Your task to perform on an android device: turn off priority inbox in the gmail app Image 0: 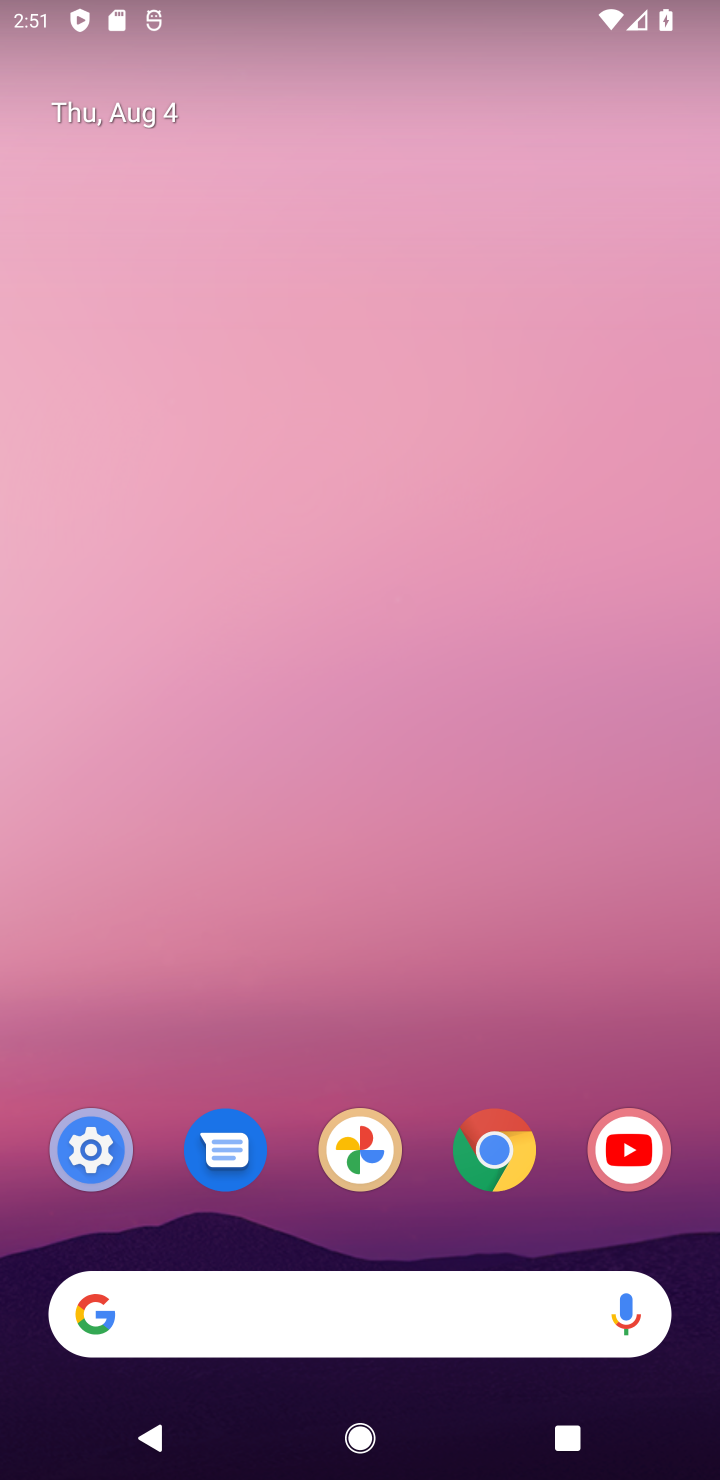
Step 0: drag from (353, 1162) to (96, 567)
Your task to perform on an android device: turn off priority inbox in the gmail app Image 1: 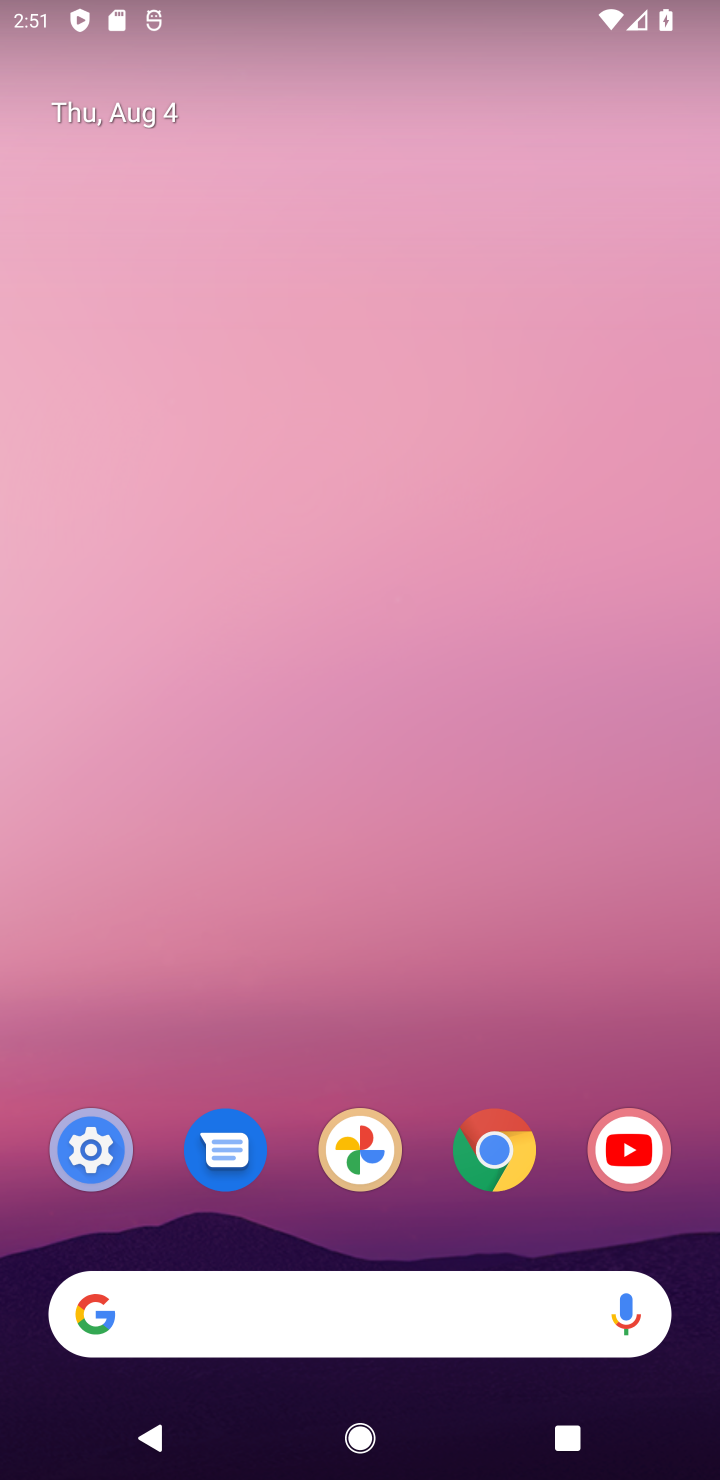
Step 1: click (430, 728)
Your task to perform on an android device: turn off priority inbox in the gmail app Image 2: 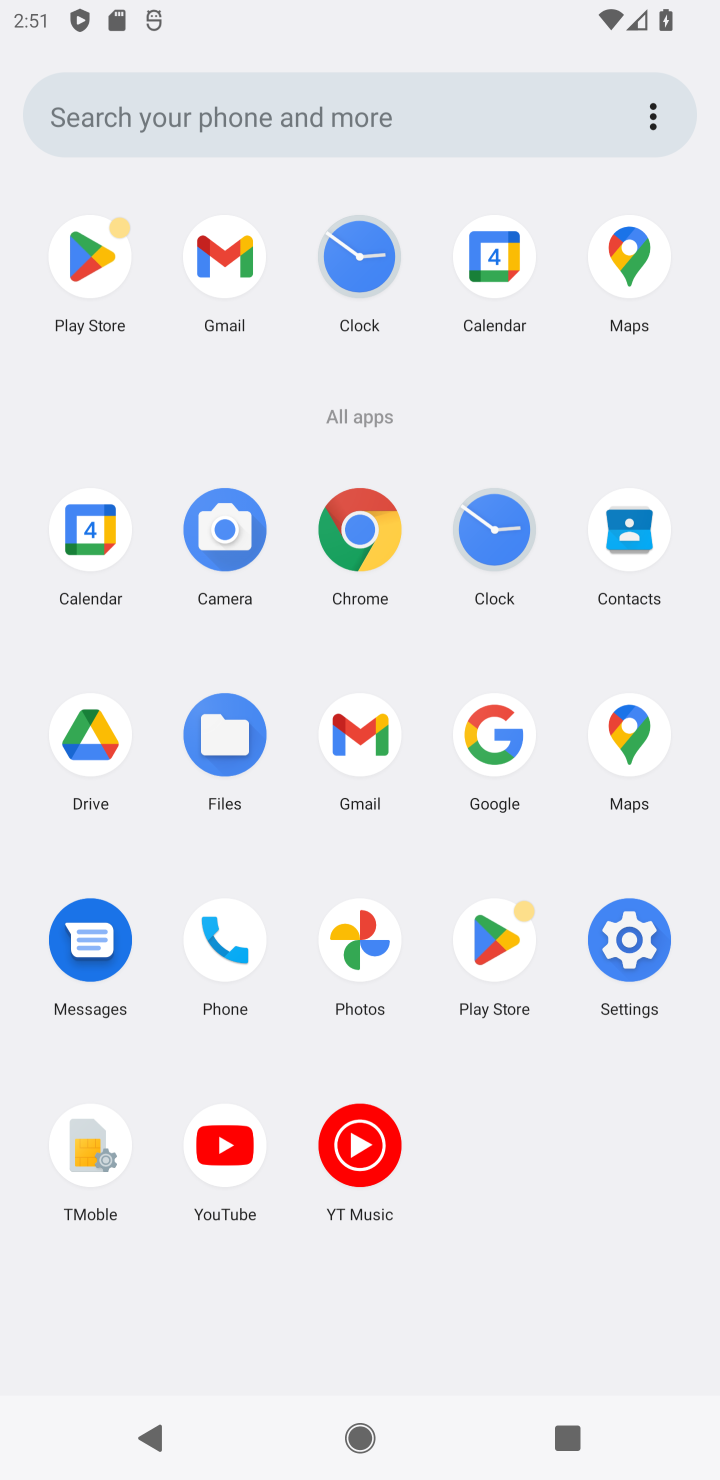
Step 2: drag from (438, 1252) to (432, 884)
Your task to perform on an android device: turn off priority inbox in the gmail app Image 3: 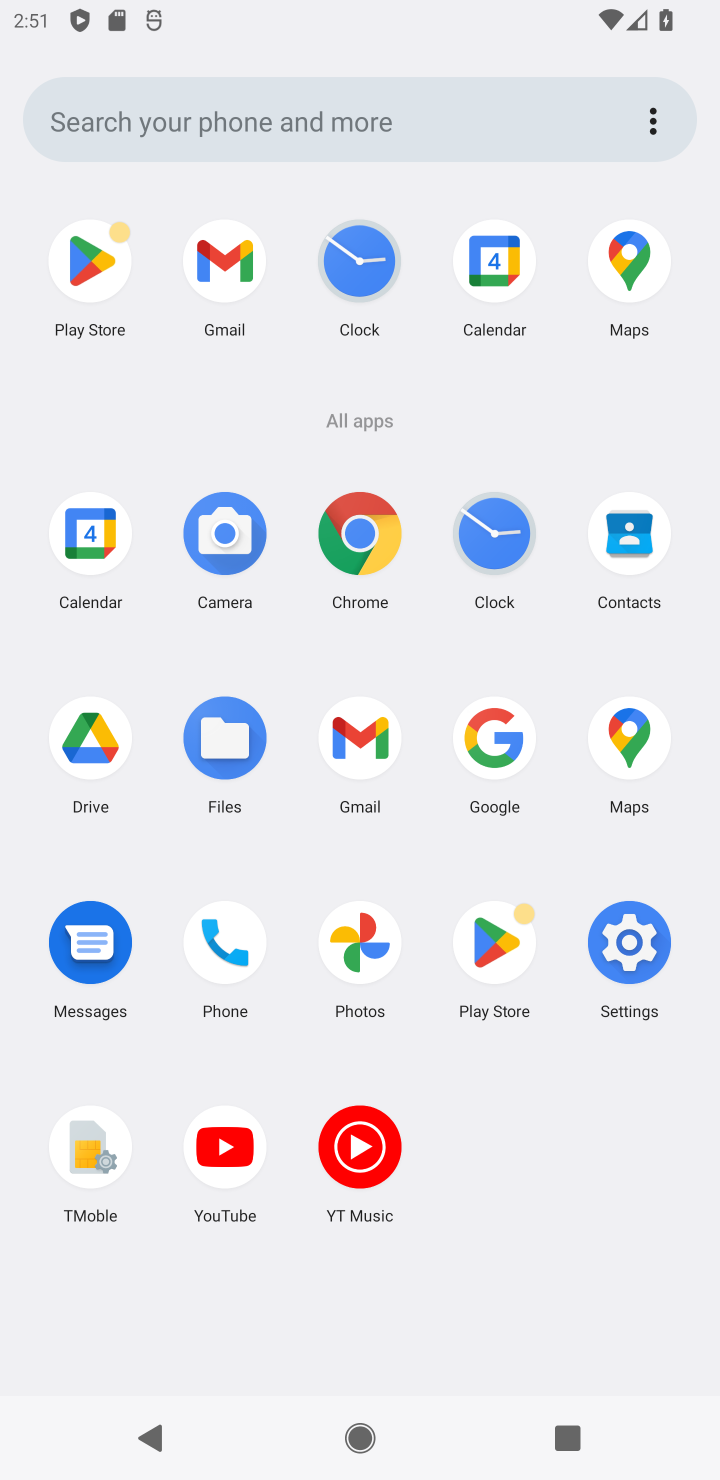
Step 3: click (356, 726)
Your task to perform on an android device: turn off priority inbox in the gmail app Image 4: 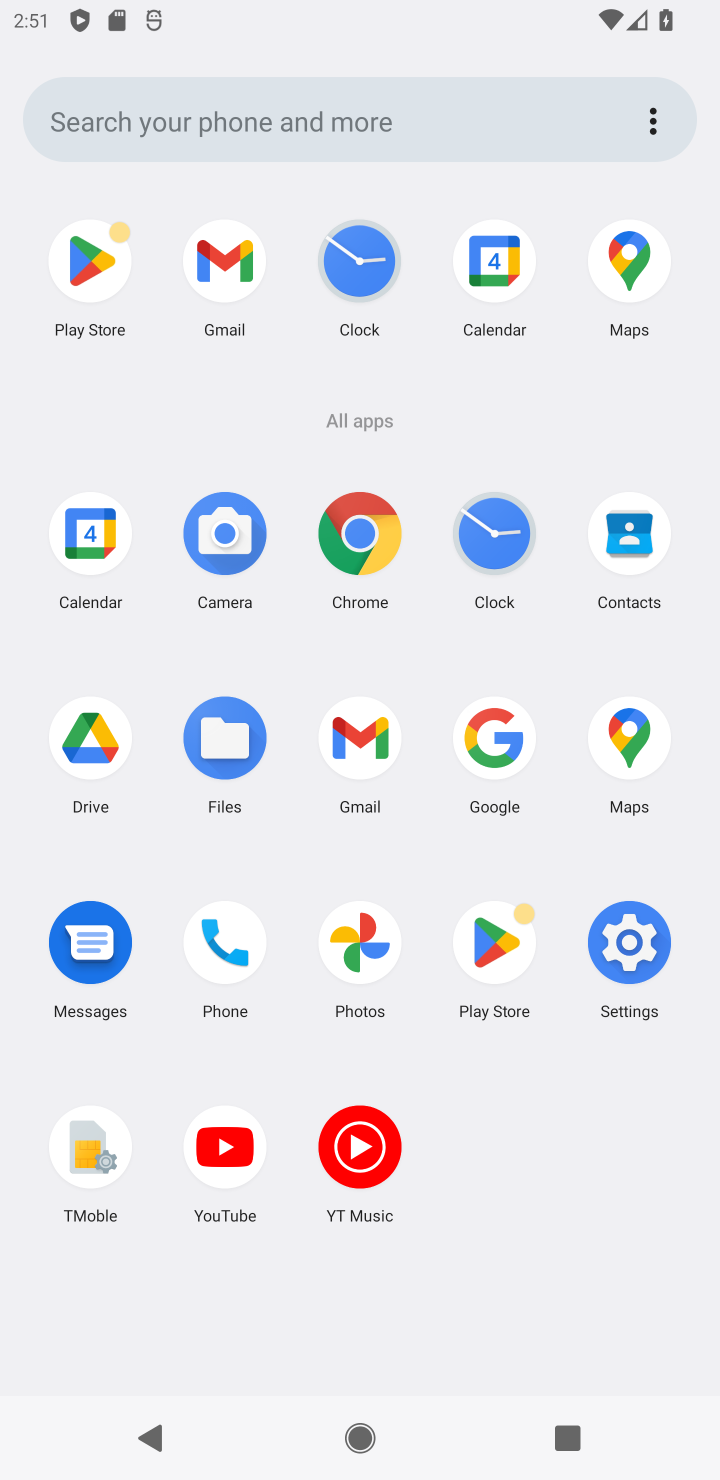
Step 4: click (358, 724)
Your task to perform on an android device: turn off priority inbox in the gmail app Image 5: 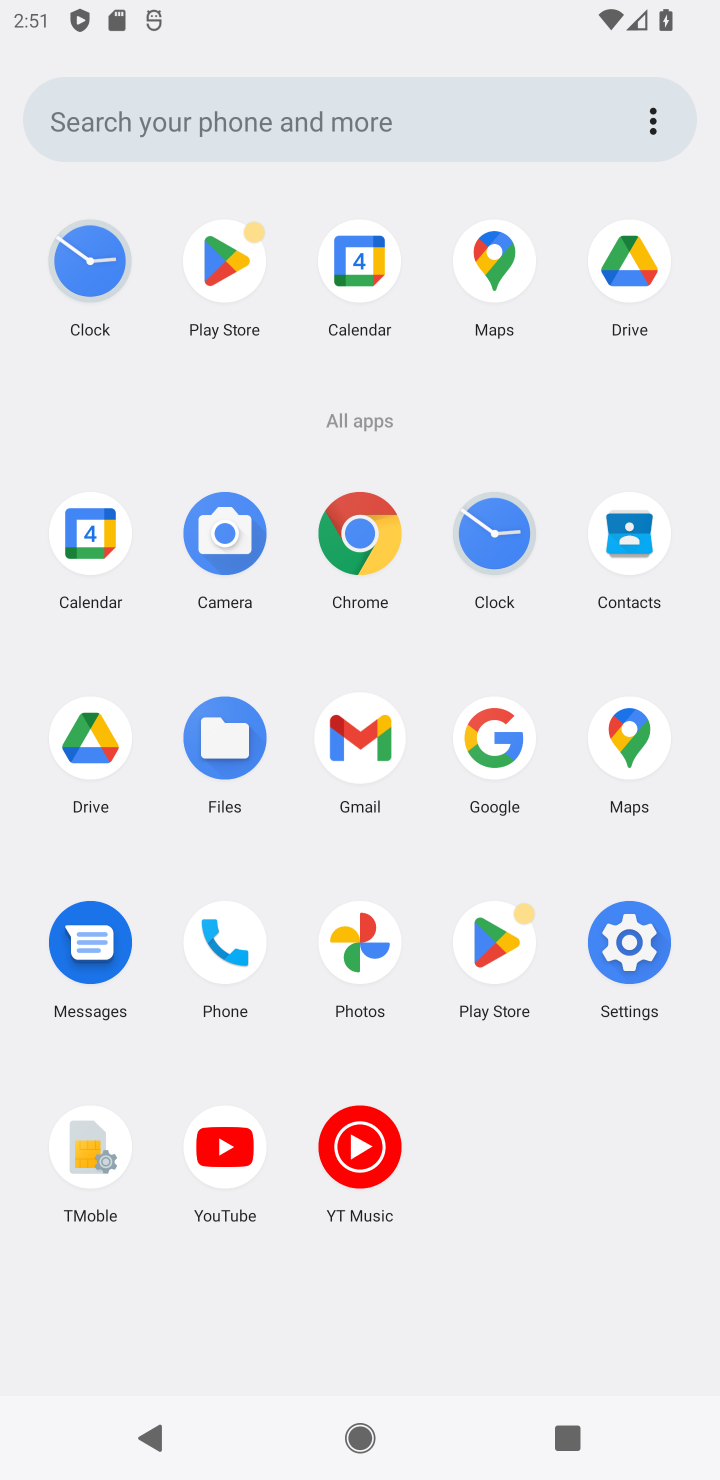
Step 5: click (354, 724)
Your task to perform on an android device: turn off priority inbox in the gmail app Image 6: 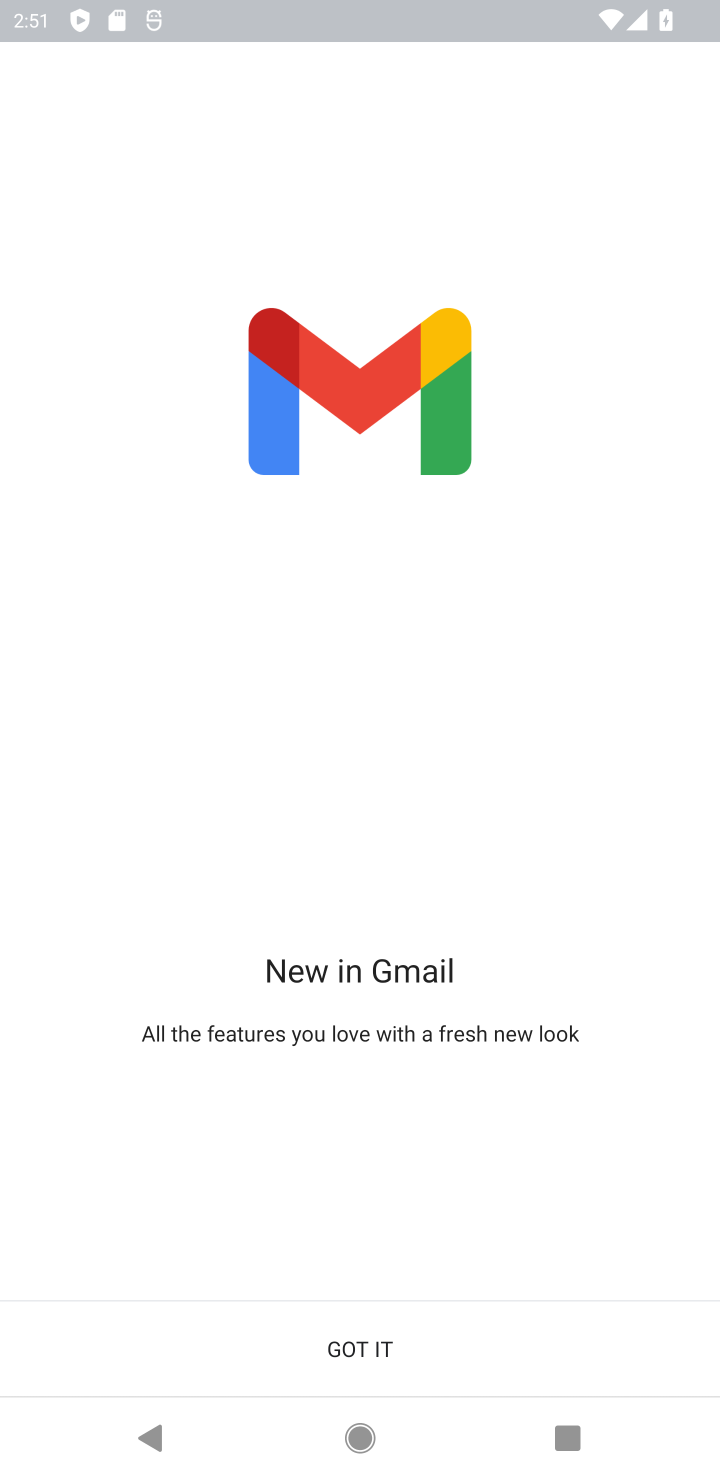
Step 6: click (351, 1338)
Your task to perform on an android device: turn off priority inbox in the gmail app Image 7: 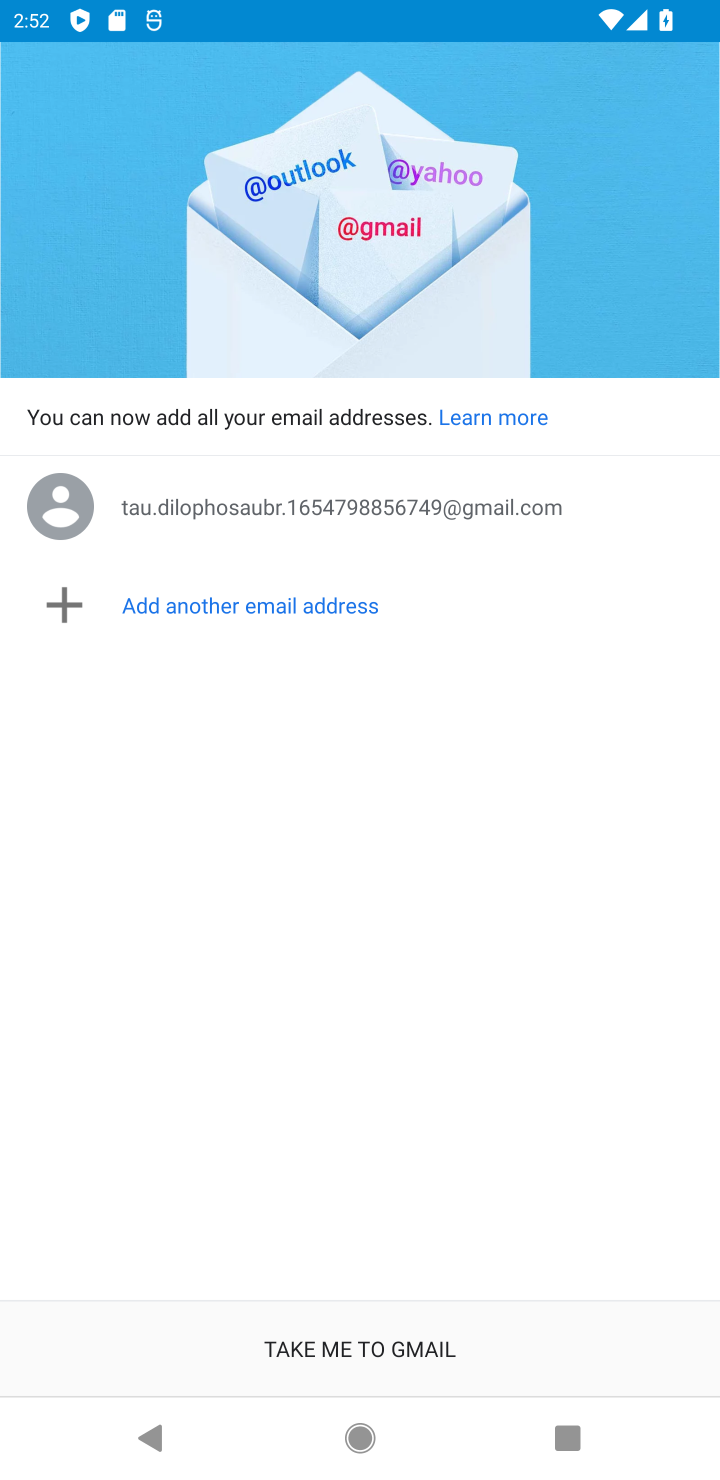
Step 7: click (377, 1353)
Your task to perform on an android device: turn off priority inbox in the gmail app Image 8: 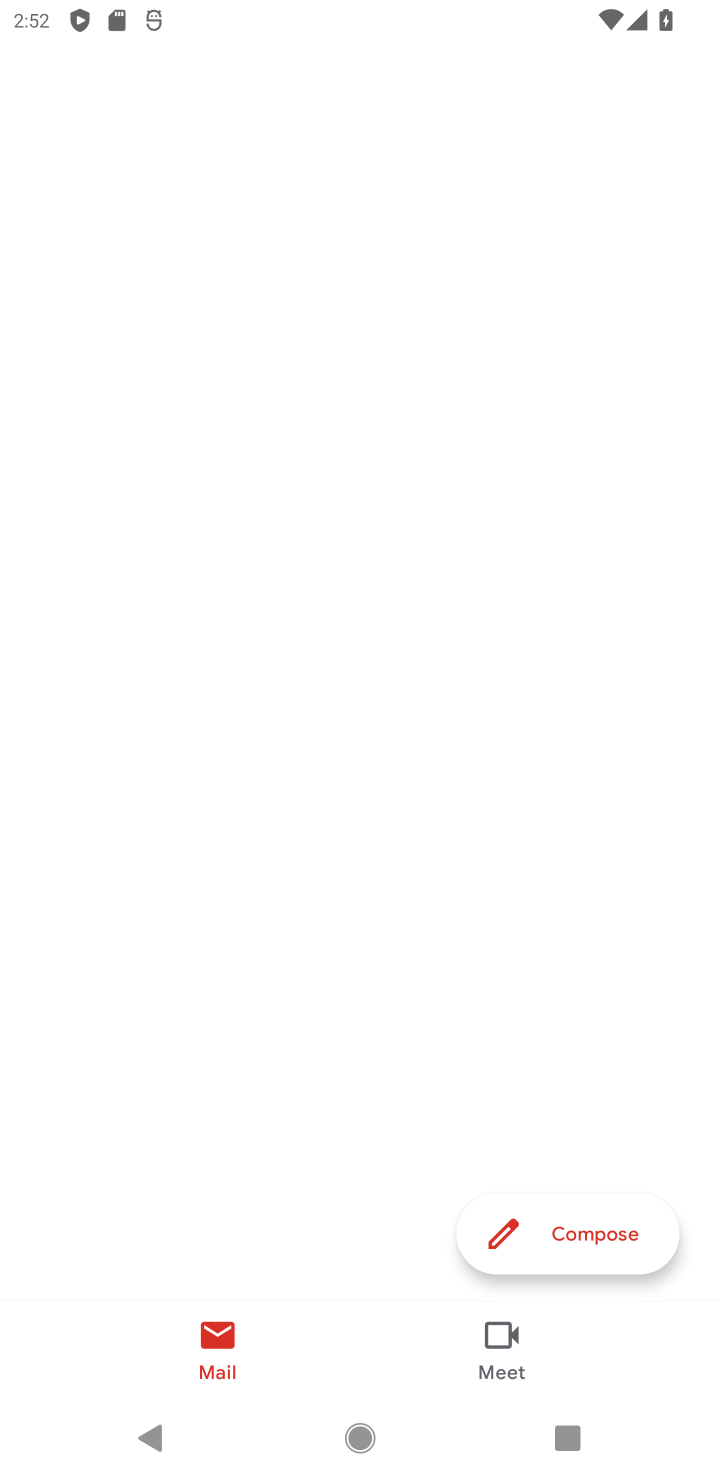
Step 8: click (377, 1339)
Your task to perform on an android device: turn off priority inbox in the gmail app Image 9: 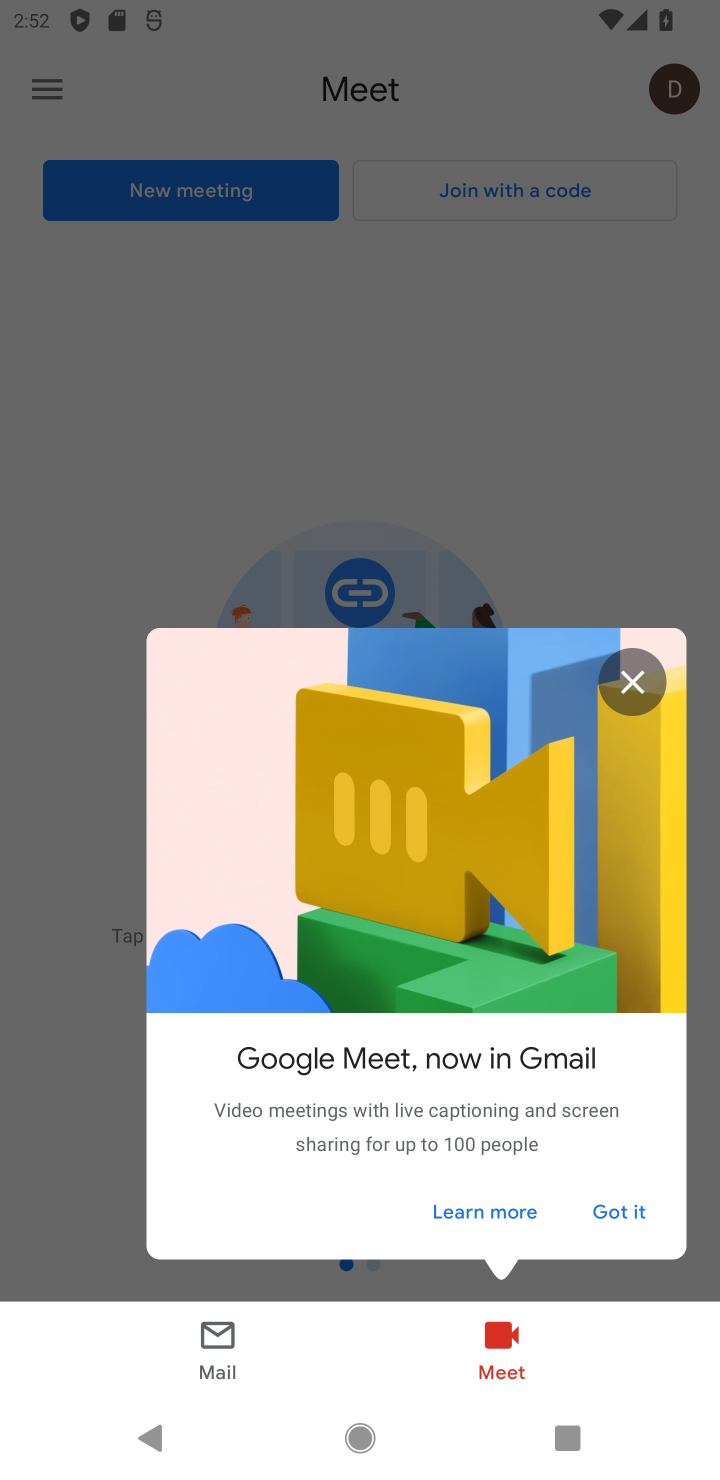
Step 9: press back button
Your task to perform on an android device: turn off priority inbox in the gmail app Image 10: 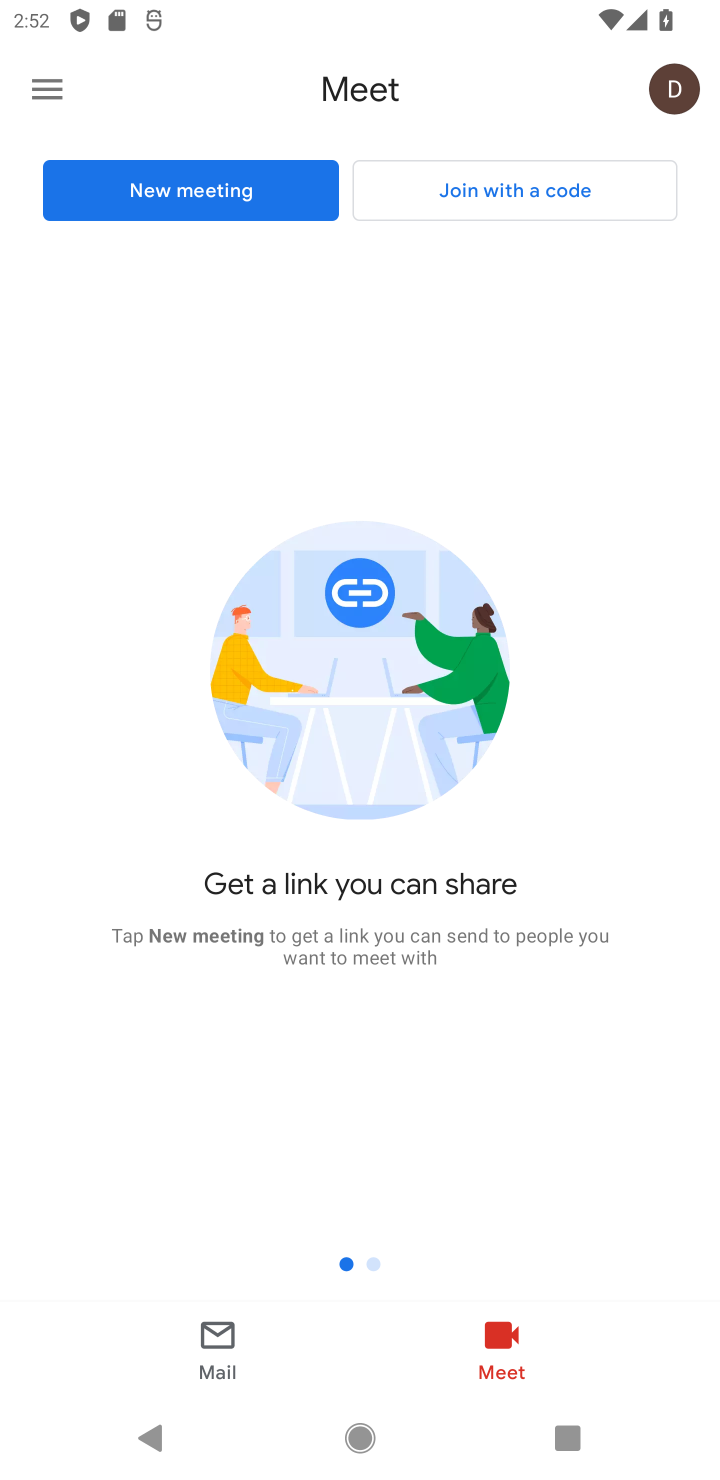
Step 10: press home button
Your task to perform on an android device: turn off priority inbox in the gmail app Image 11: 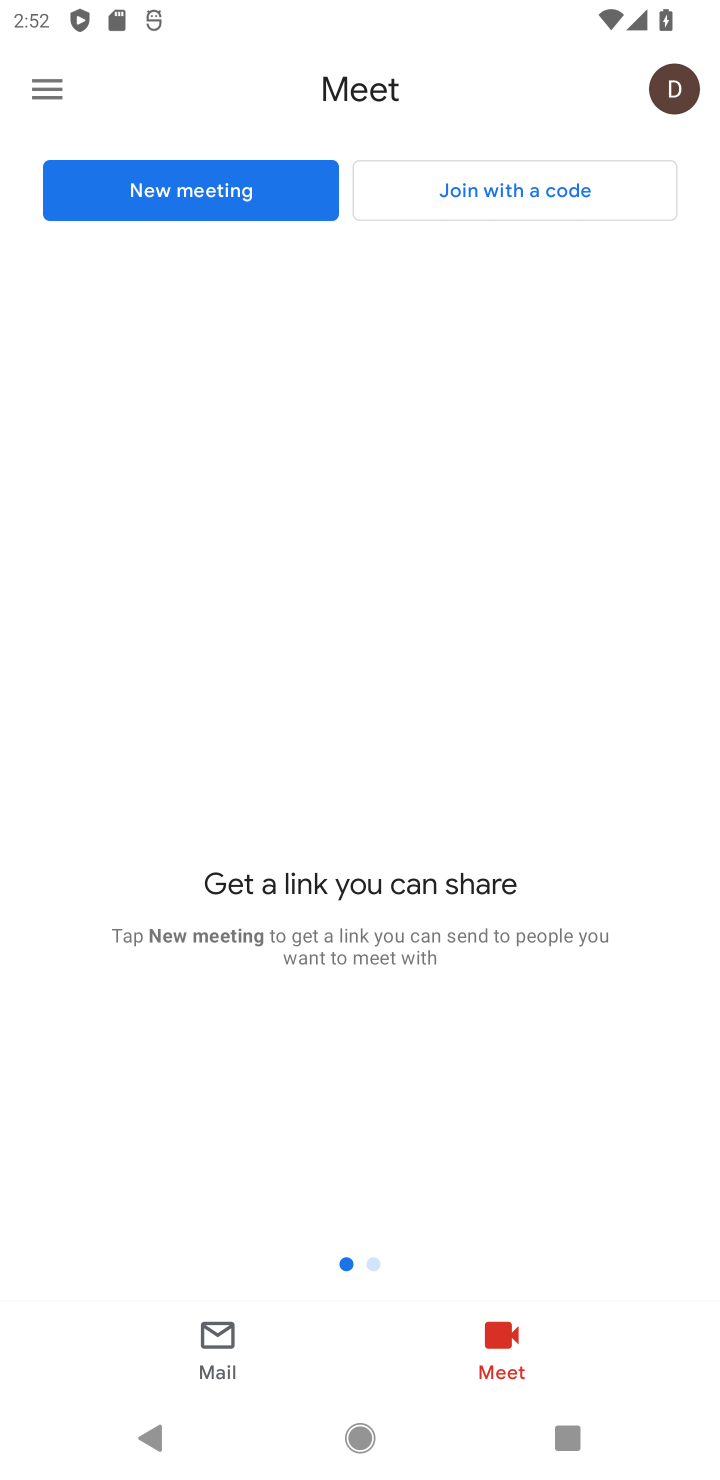
Step 11: press back button
Your task to perform on an android device: turn off priority inbox in the gmail app Image 12: 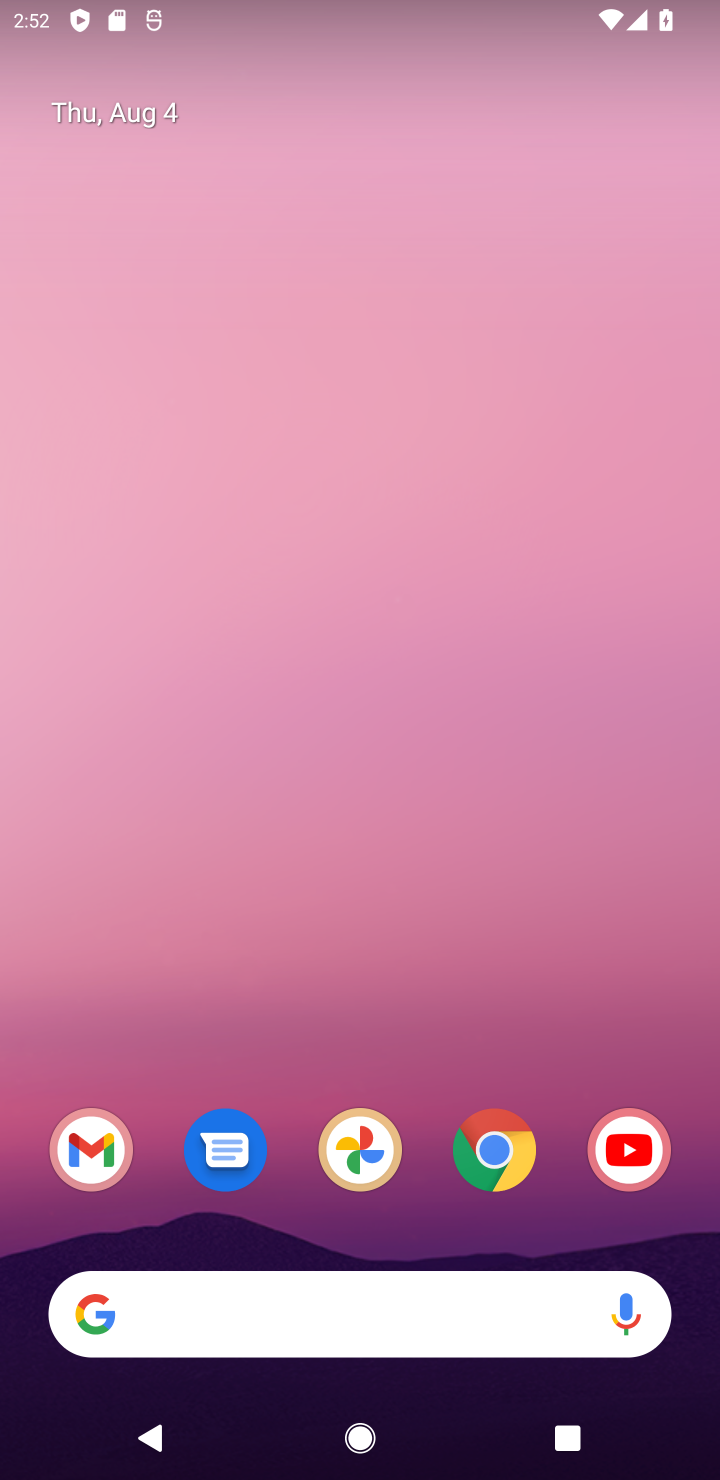
Step 12: drag from (211, 140) to (300, 124)
Your task to perform on an android device: turn off priority inbox in the gmail app Image 13: 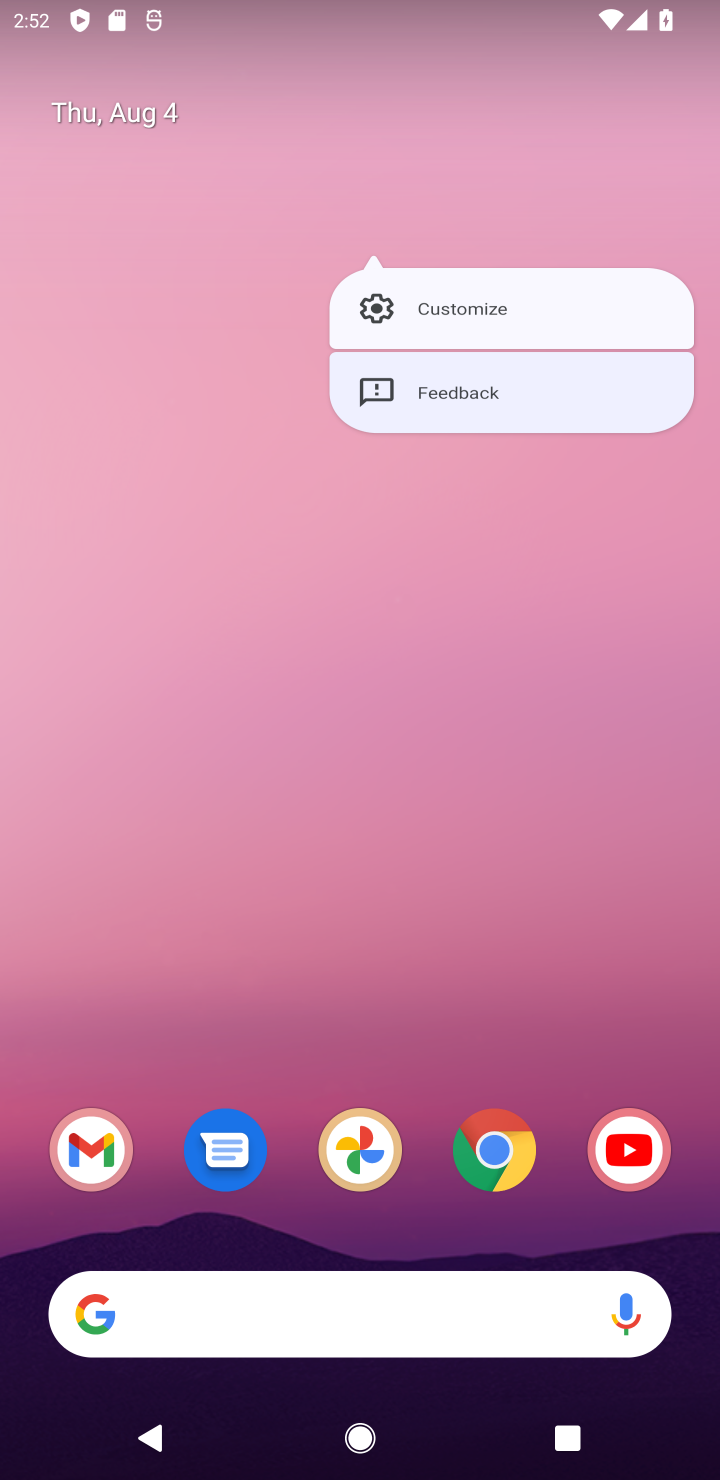
Step 13: click (263, 241)
Your task to perform on an android device: turn off priority inbox in the gmail app Image 14: 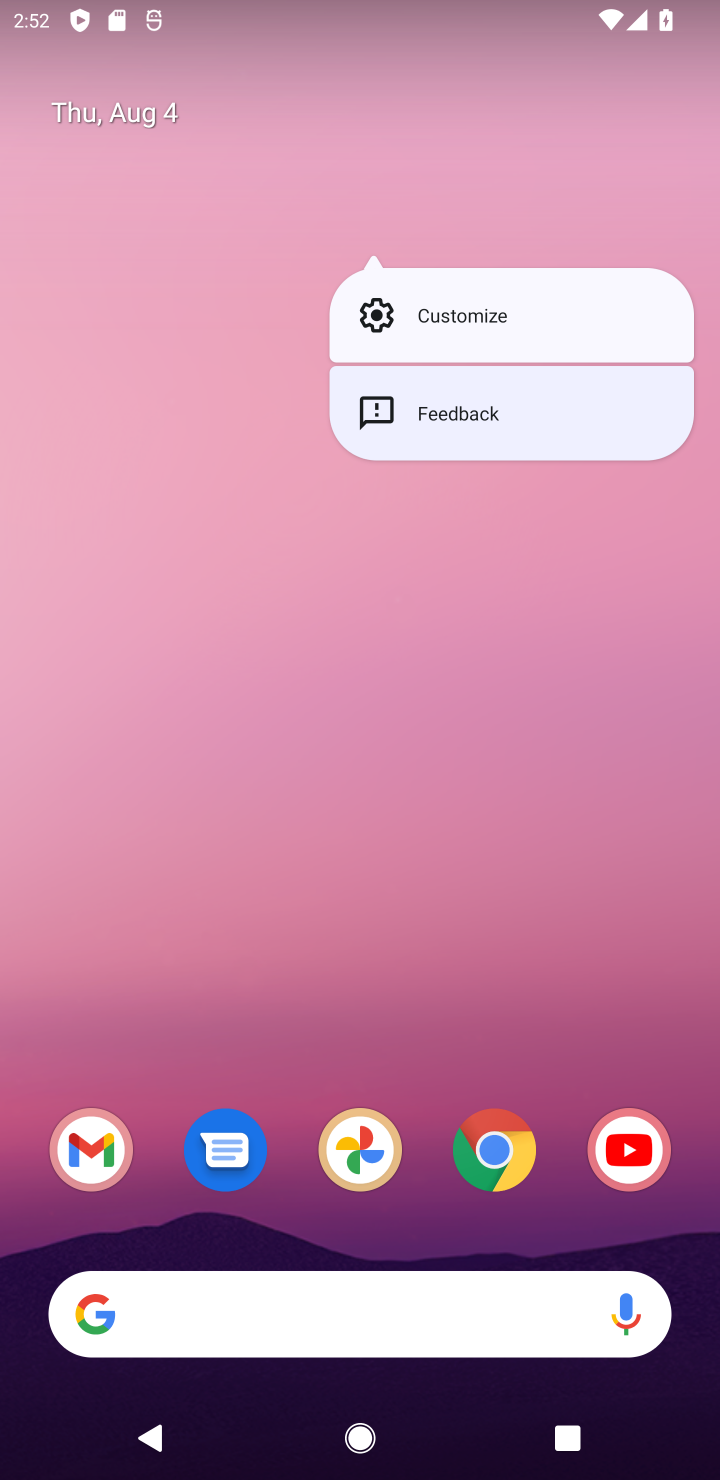
Step 14: drag from (437, 1094) to (410, 208)
Your task to perform on an android device: turn off priority inbox in the gmail app Image 15: 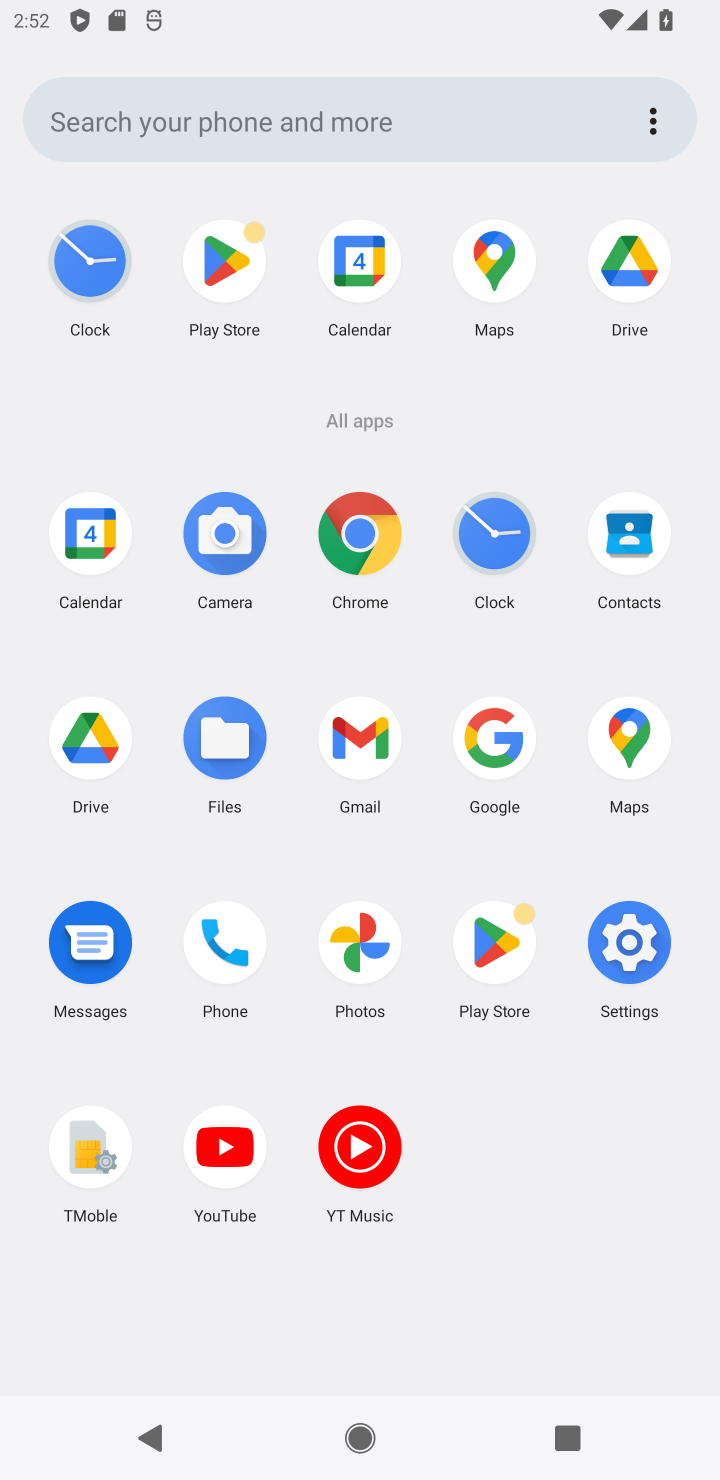
Step 15: click (353, 762)
Your task to perform on an android device: turn off priority inbox in the gmail app Image 16: 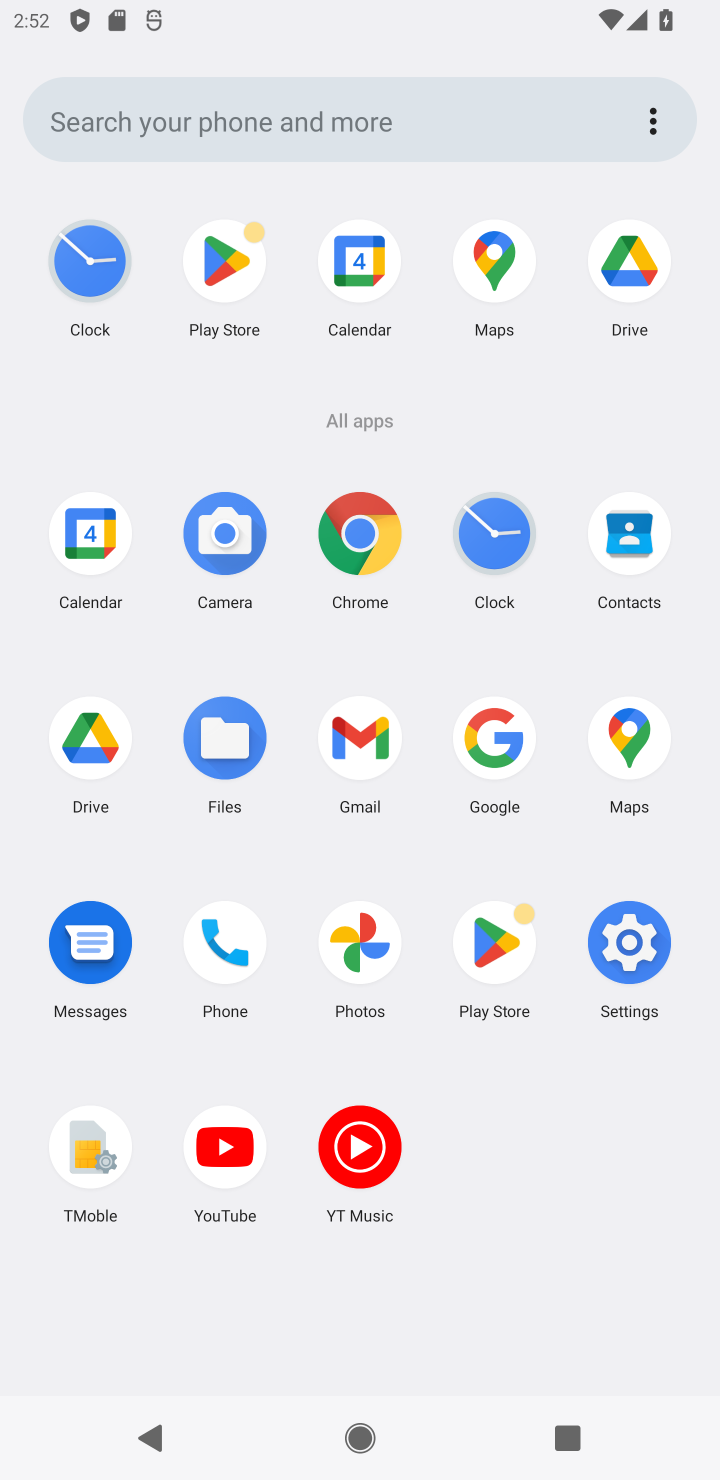
Step 16: click (351, 760)
Your task to perform on an android device: turn off priority inbox in the gmail app Image 17: 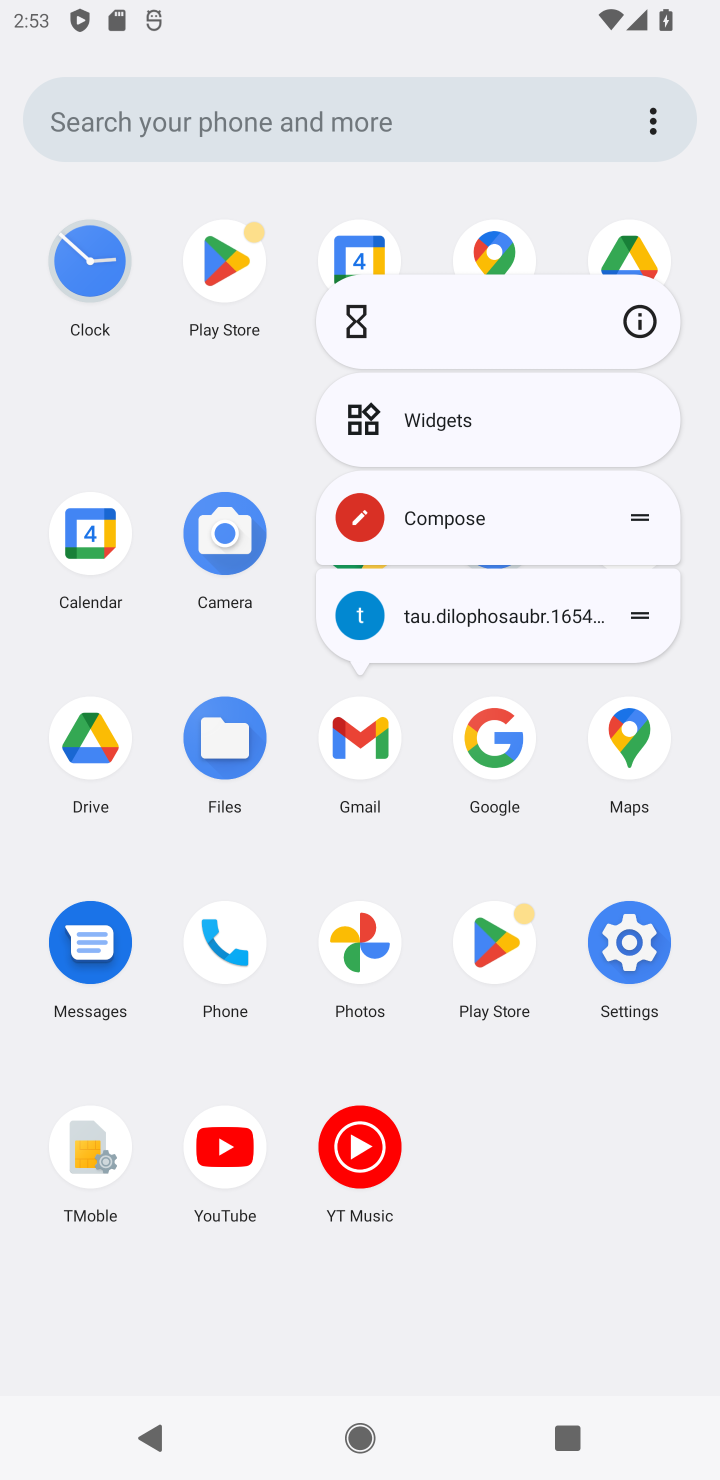
Step 17: click (354, 742)
Your task to perform on an android device: turn off priority inbox in the gmail app Image 18: 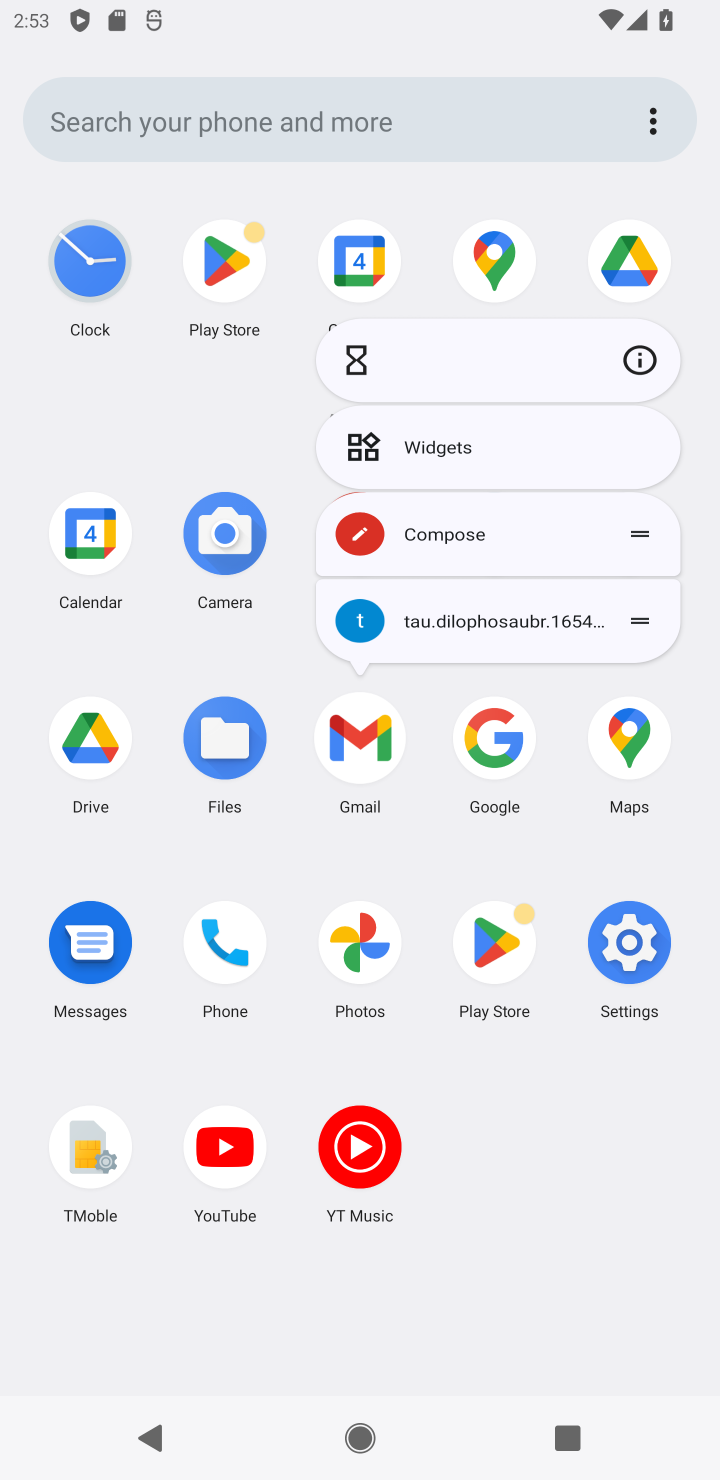
Step 18: click (354, 742)
Your task to perform on an android device: turn off priority inbox in the gmail app Image 19: 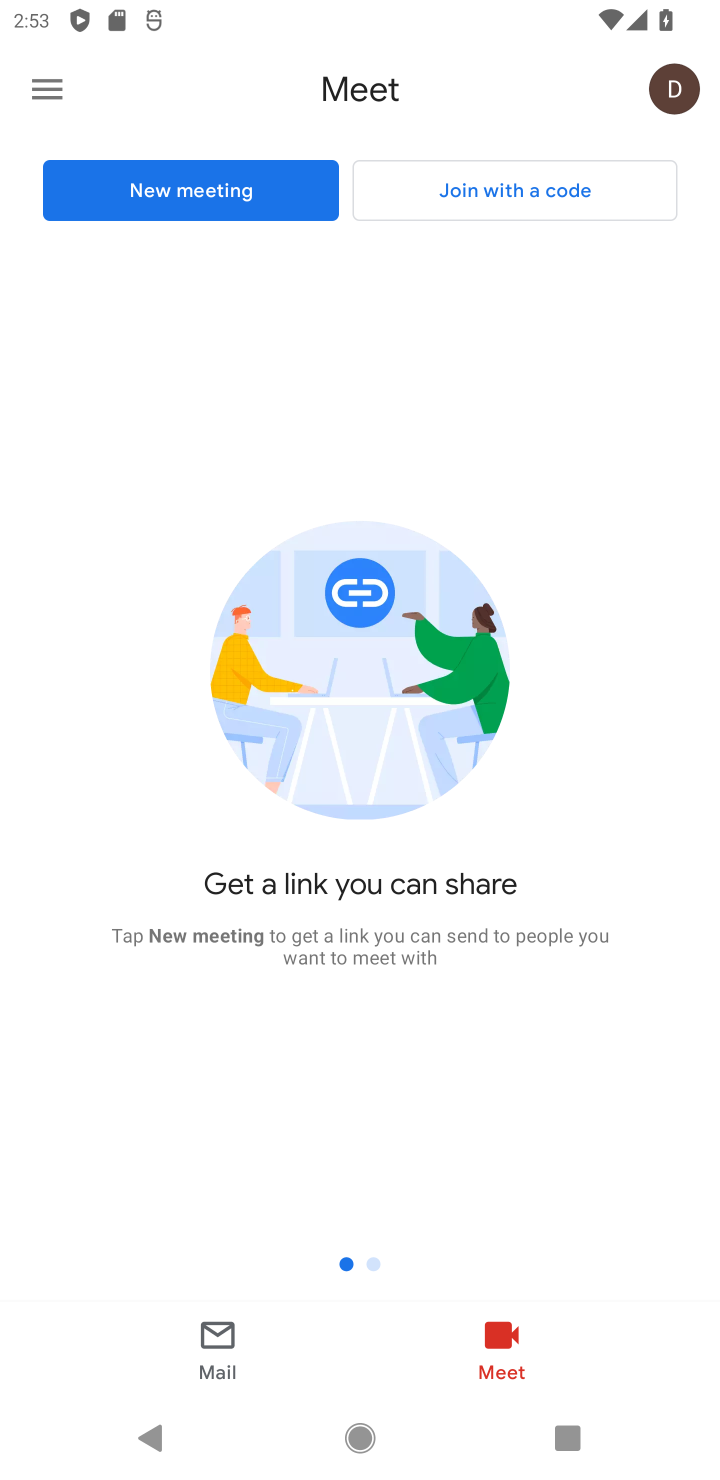
Step 19: press back button
Your task to perform on an android device: turn off priority inbox in the gmail app Image 20: 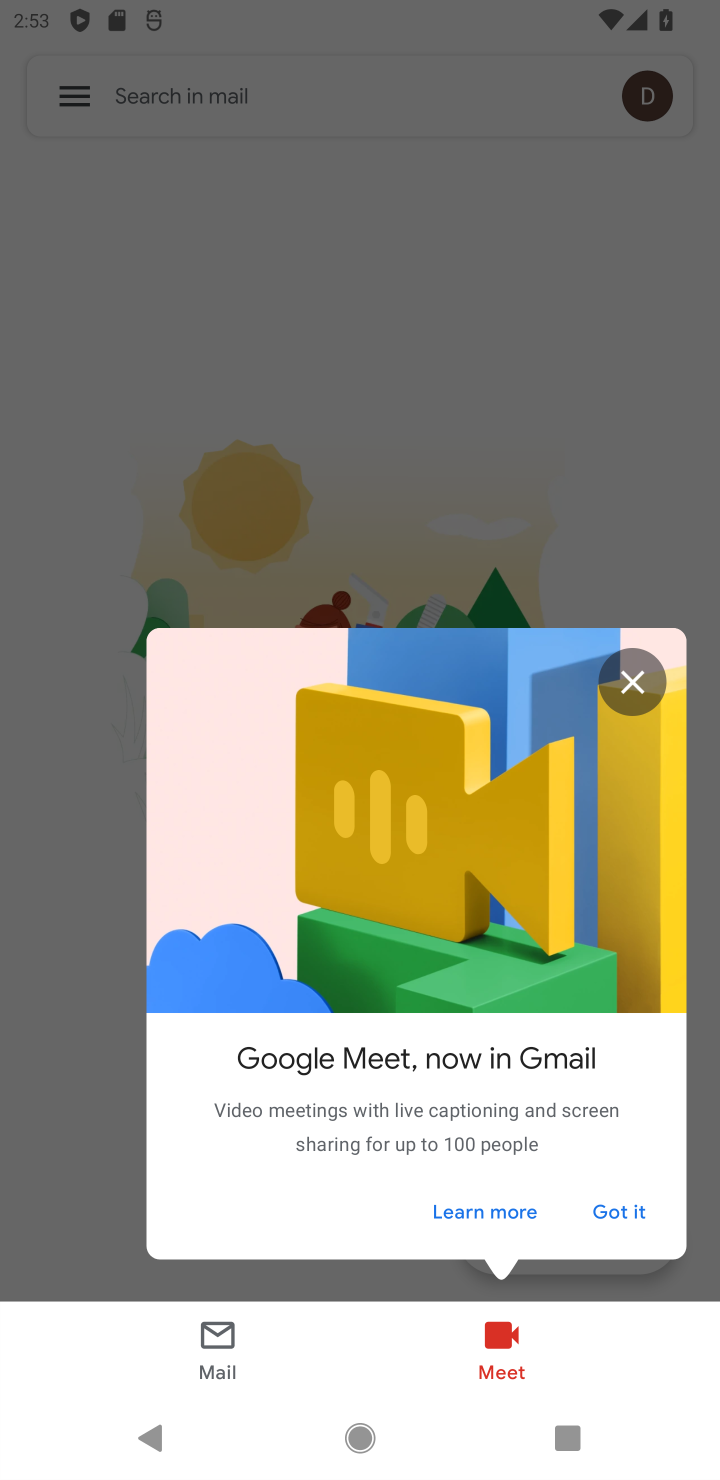
Step 20: click (477, 313)
Your task to perform on an android device: turn off priority inbox in the gmail app Image 21: 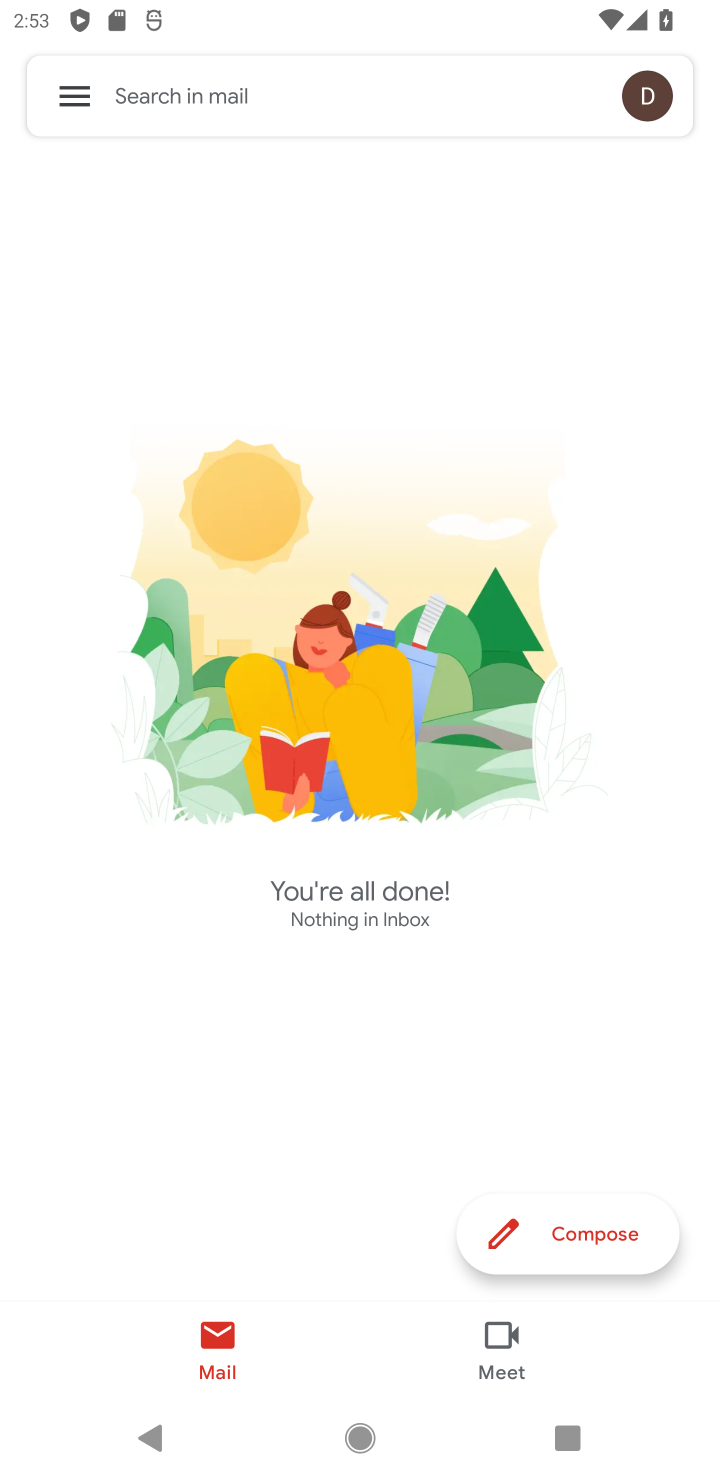
Step 21: press back button
Your task to perform on an android device: turn off priority inbox in the gmail app Image 22: 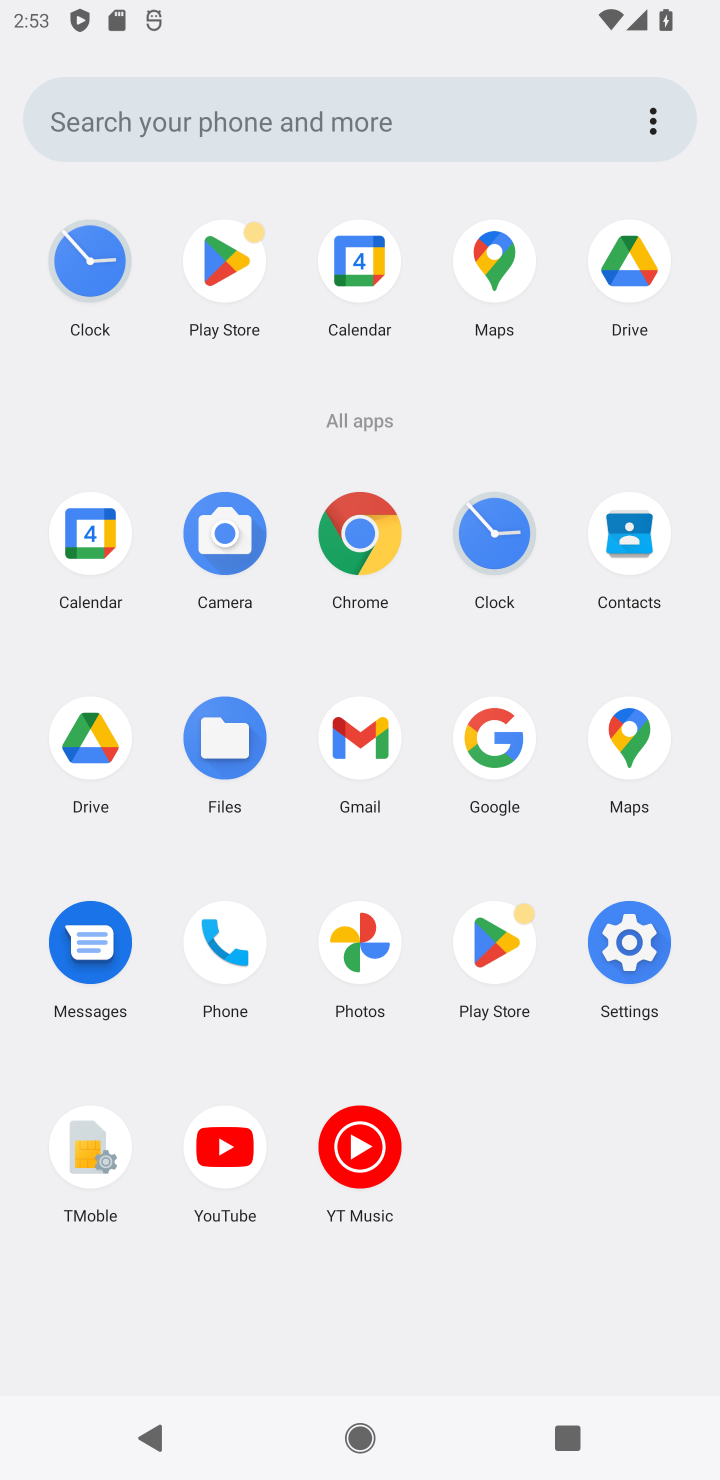
Step 22: click (350, 742)
Your task to perform on an android device: turn off priority inbox in the gmail app Image 23: 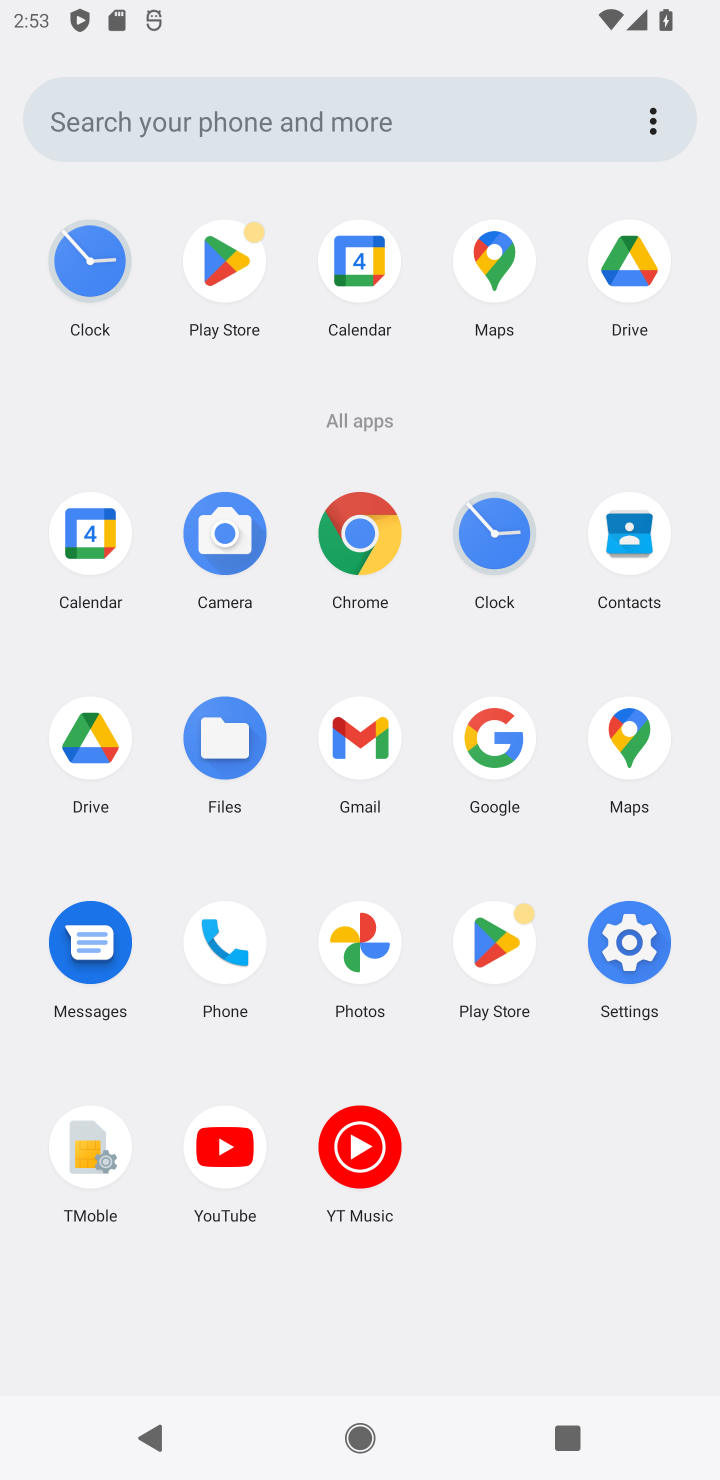
Step 23: click (350, 742)
Your task to perform on an android device: turn off priority inbox in the gmail app Image 24: 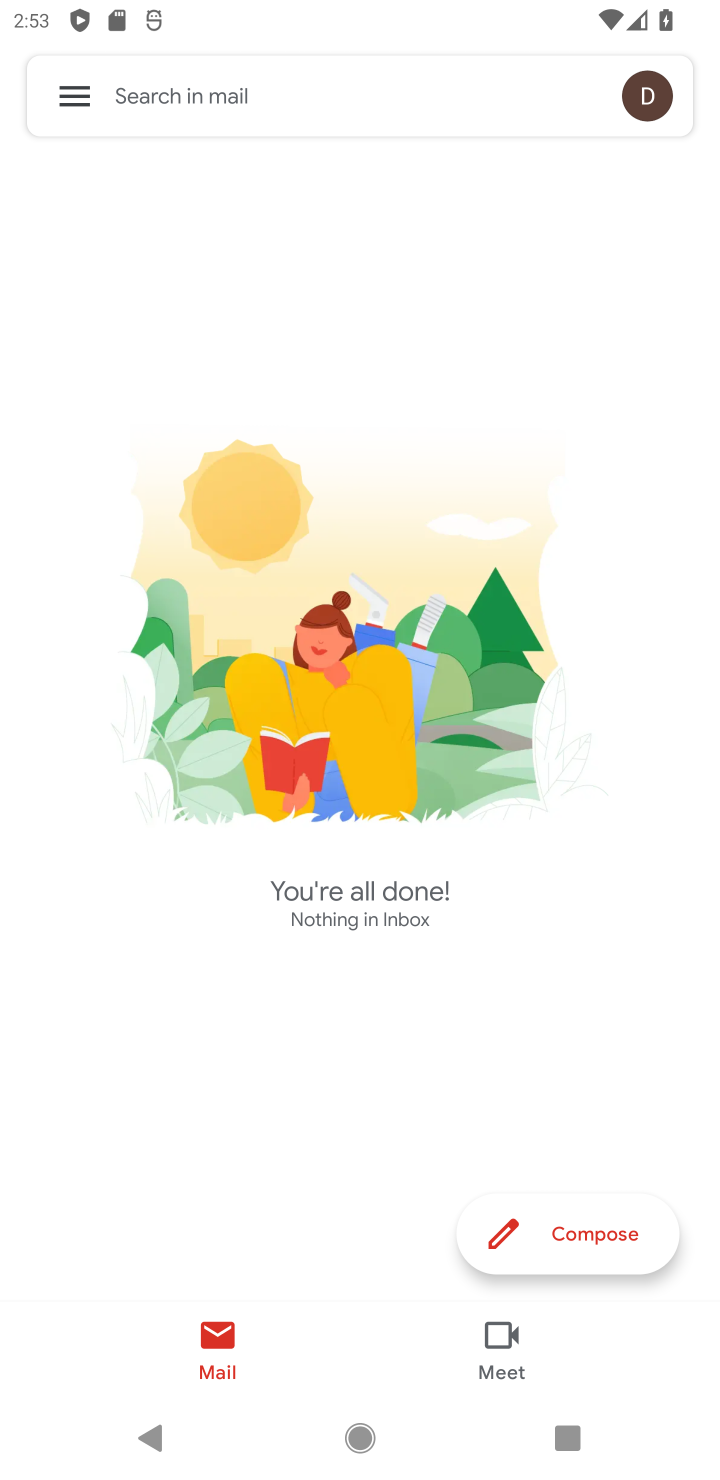
Step 24: click (61, 115)
Your task to perform on an android device: turn off priority inbox in the gmail app Image 25: 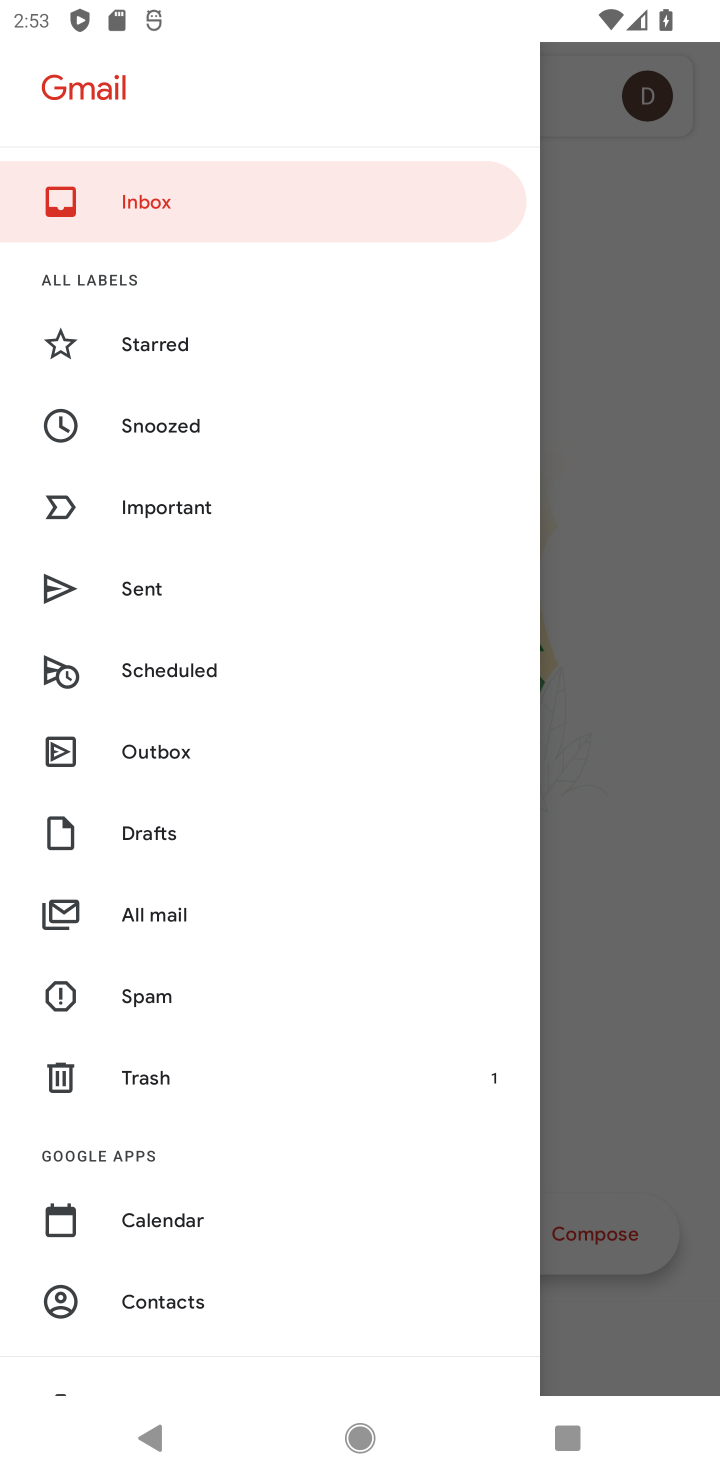
Step 25: drag from (177, 1101) to (137, 432)
Your task to perform on an android device: turn off priority inbox in the gmail app Image 26: 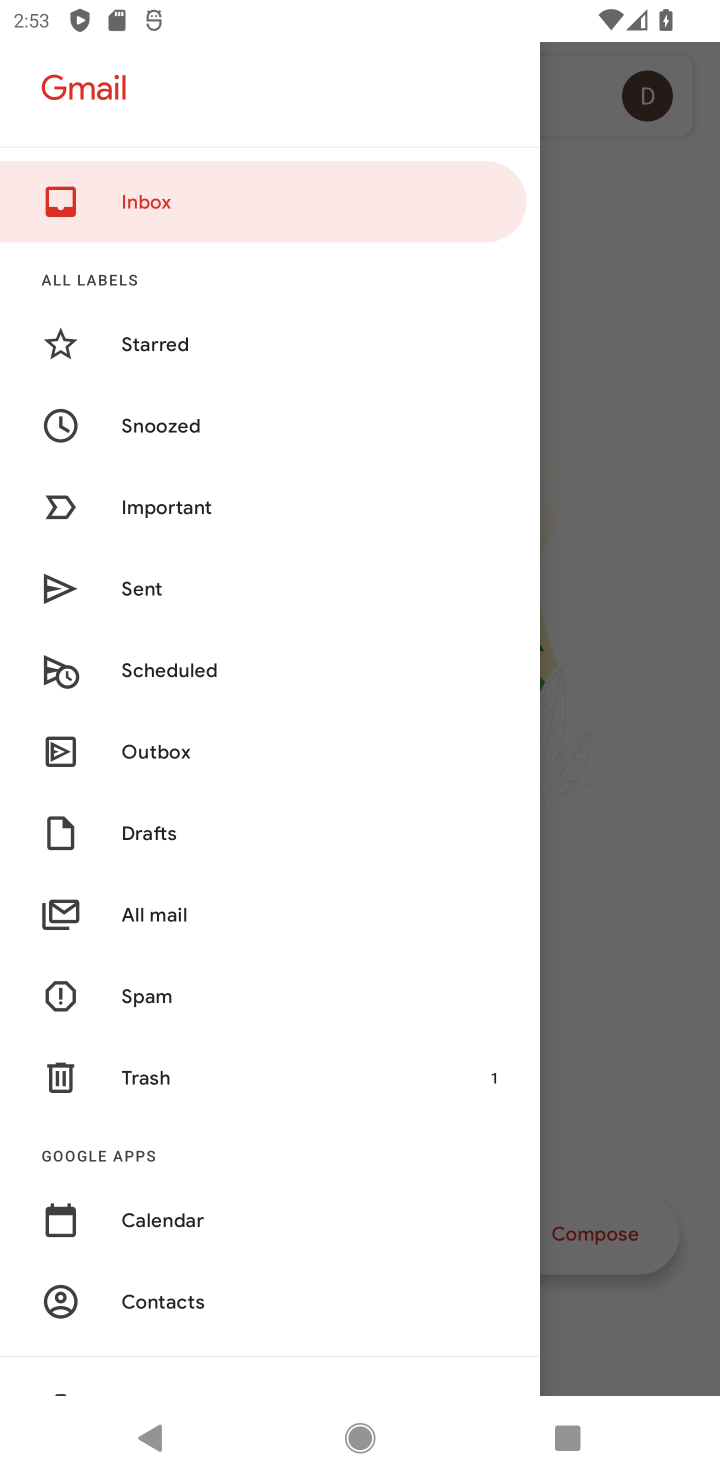
Step 26: drag from (258, 986) to (288, 151)
Your task to perform on an android device: turn off priority inbox in the gmail app Image 27: 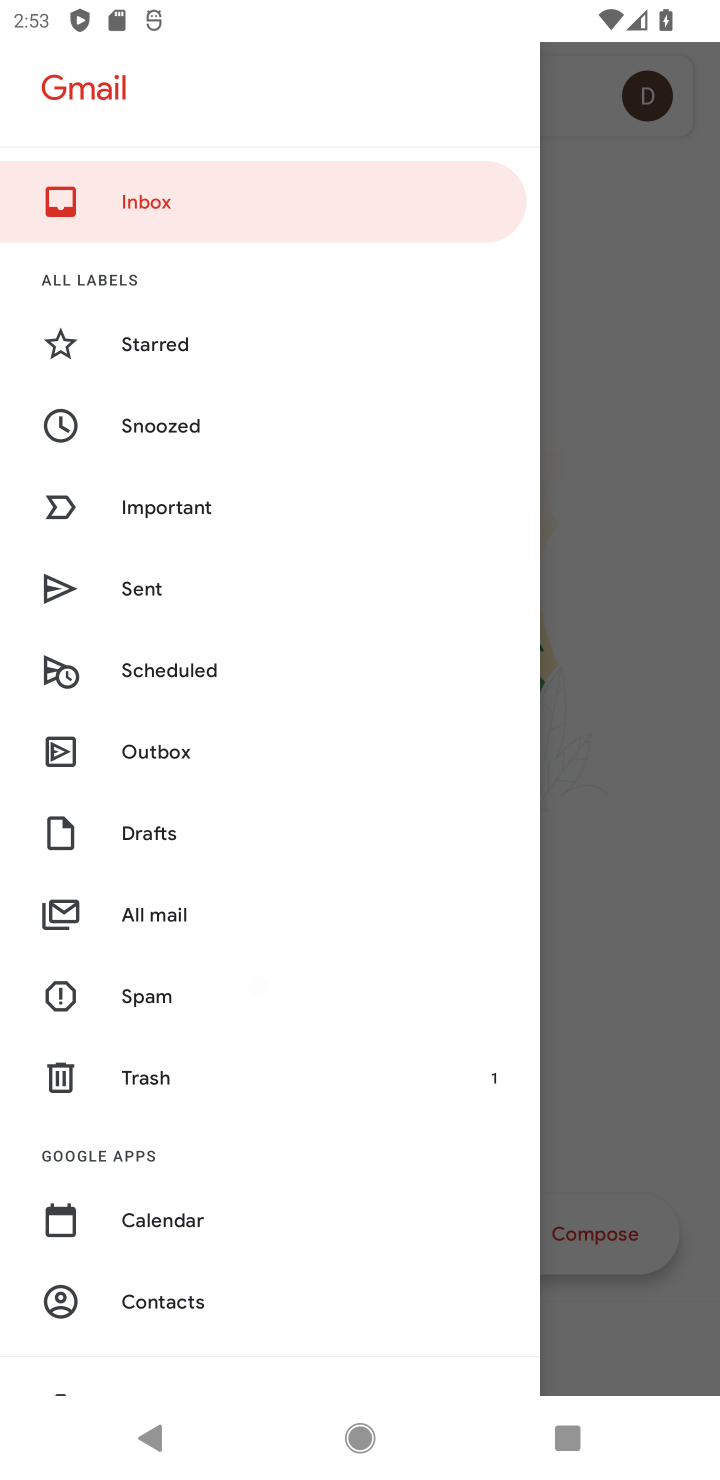
Step 27: drag from (269, 519) to (220, 45)
Your task to perform on an android device: turn off priority inbox in the gmail app Image 28: 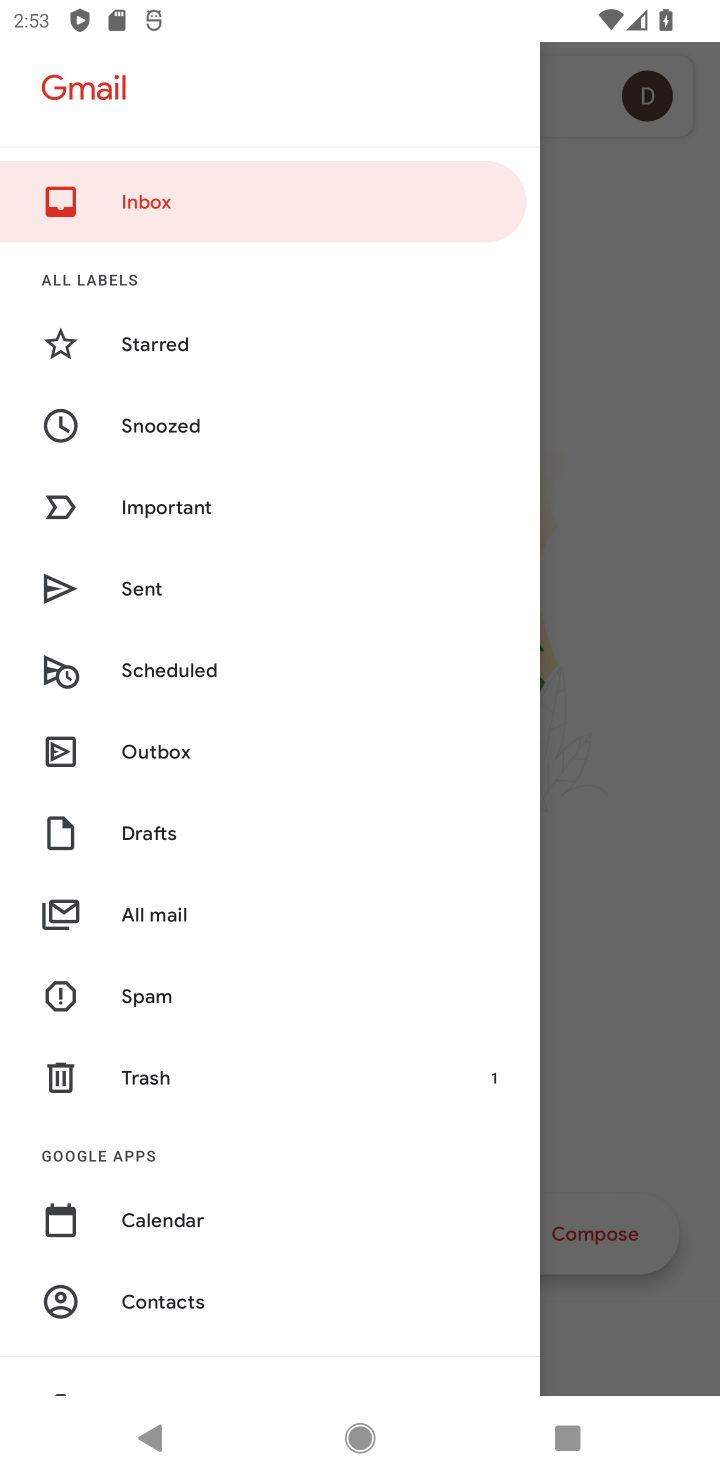
Step 28: drag from (313, 436) to (313, 211)
Your task to perform on an android device: turn off priority inbox in the gmail app Image 29: 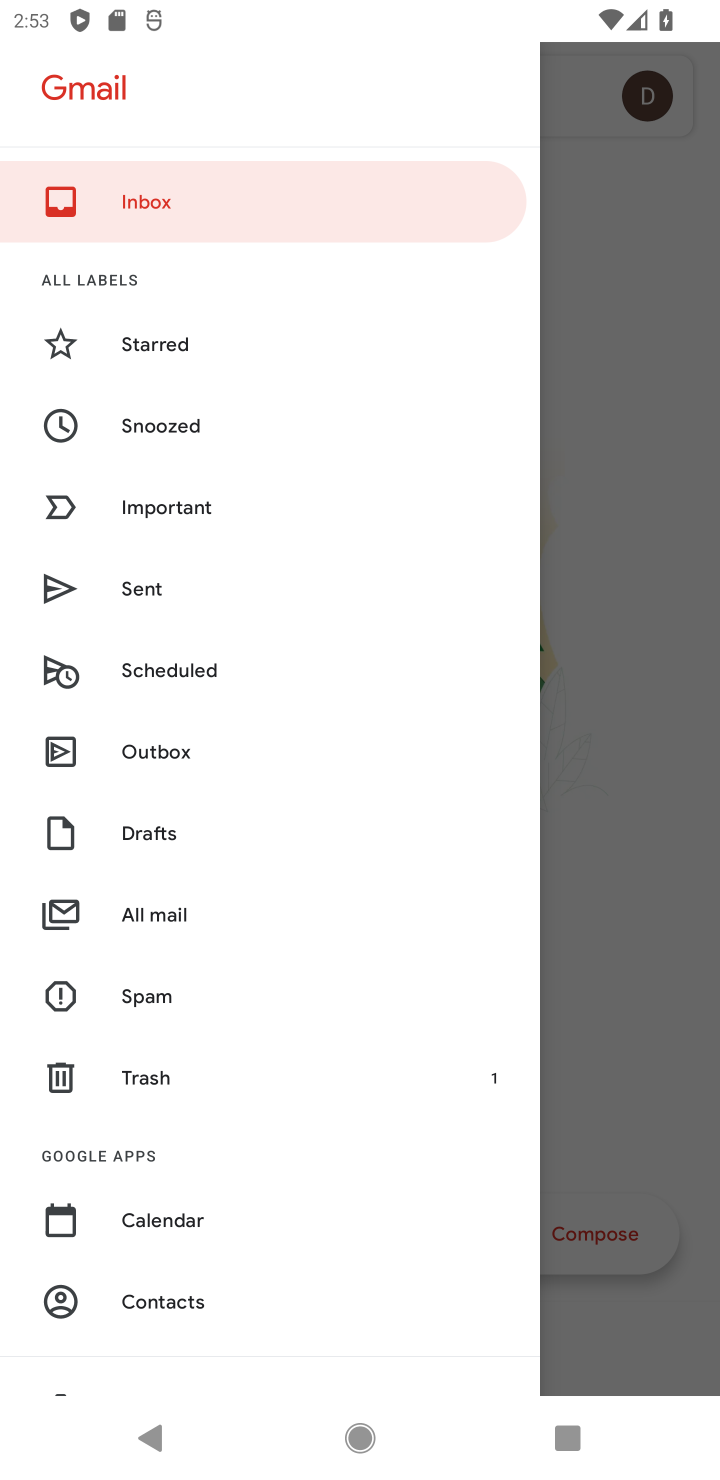
Step 29: drag from (171, 685) to (163, 360)
Your task to perform on an android device: turn off priority inbox in the gmail app Image 30: 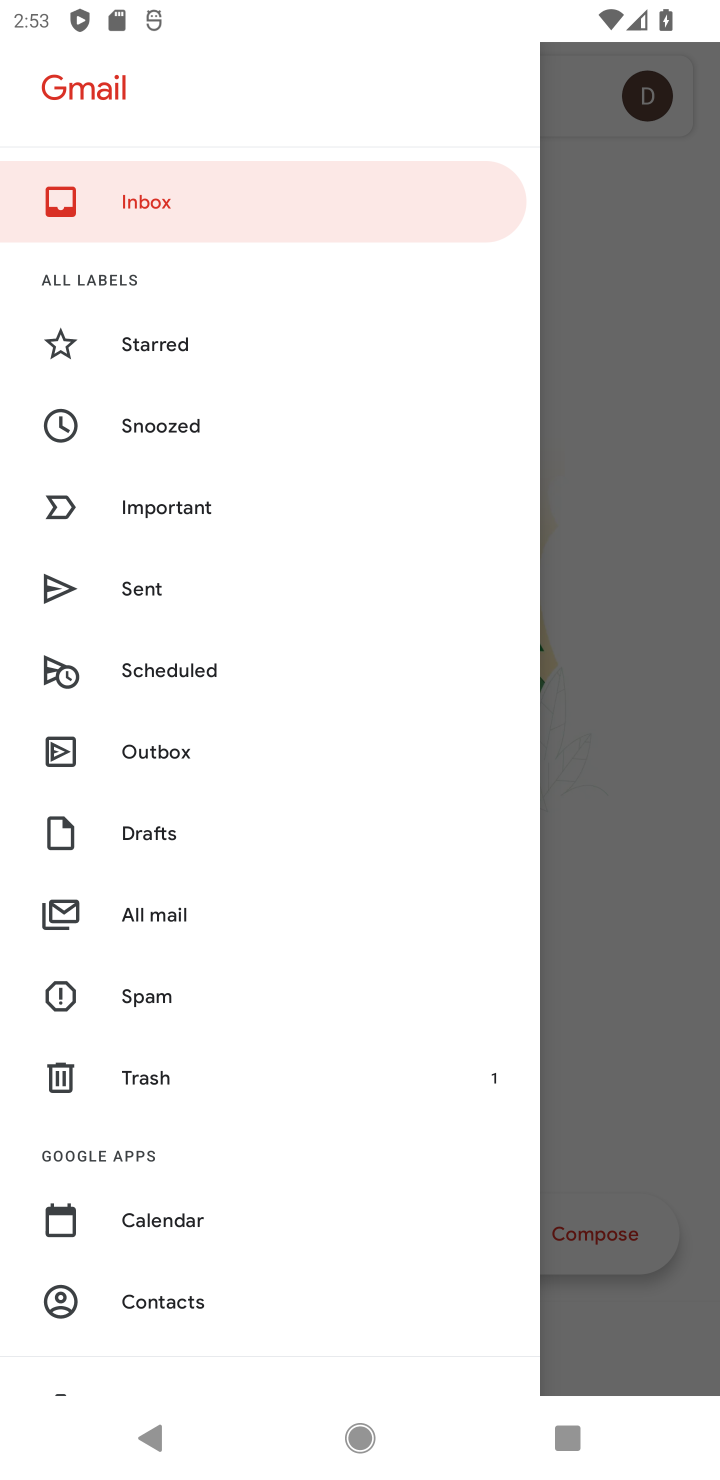
Step 30: drag from (268, 913) to (216, 345)
Your task to perform on an android device: turn off priority inbox in the gmail app Image 31: 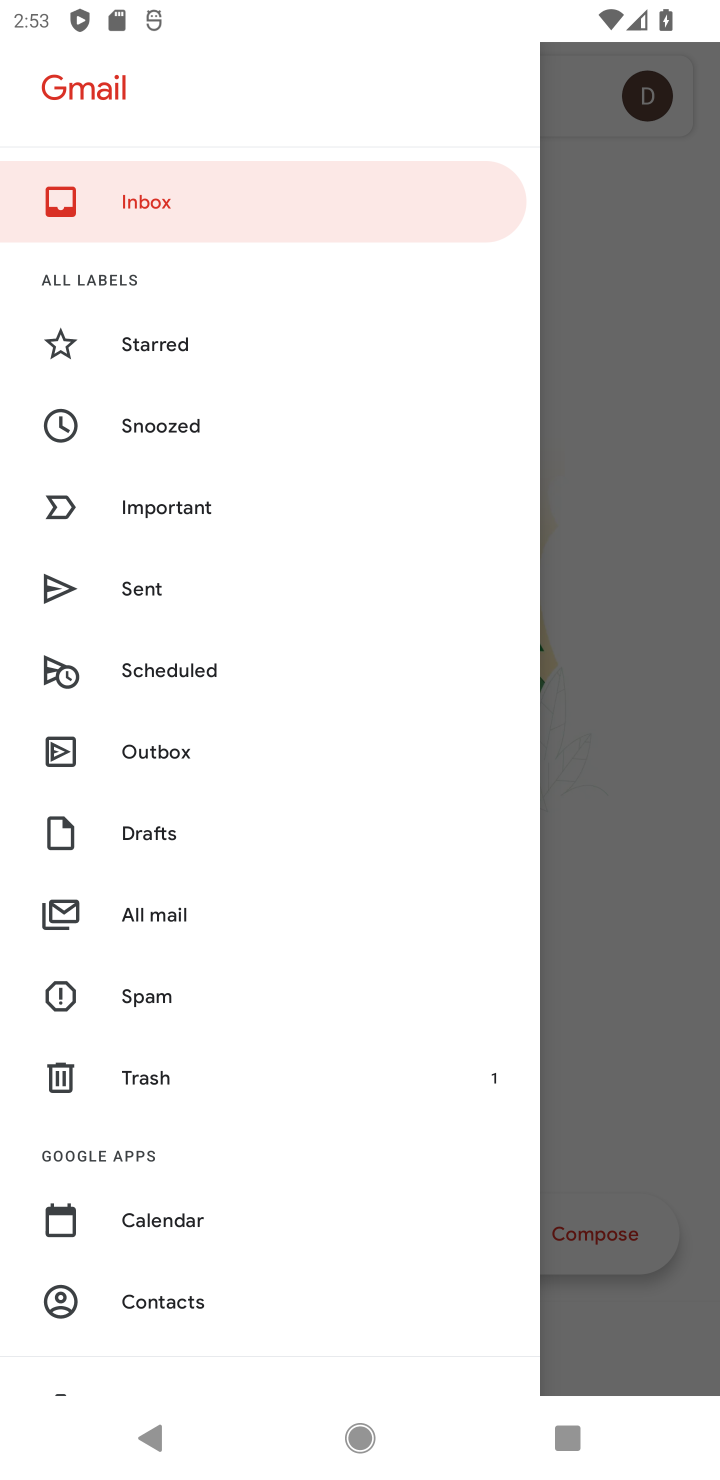
Step 31: drag from (119, 1257) to (235, 438)
Your task to perform on an android device: turn off priority inbox in the gmail app Image 32: 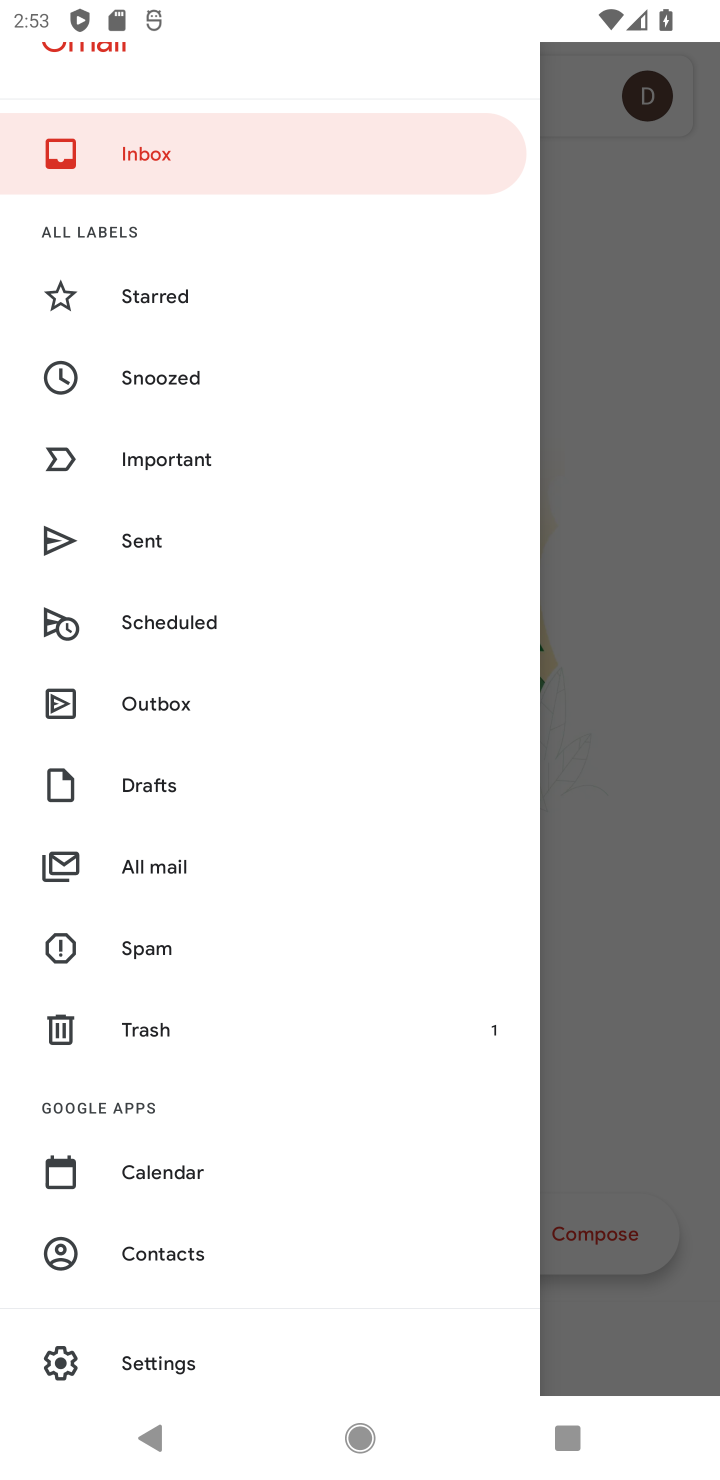
Step 32: drag from (120, 663) to (197, 210)
Your task to perform on an android device: turn off priority inbox in the gmail app Image 33: 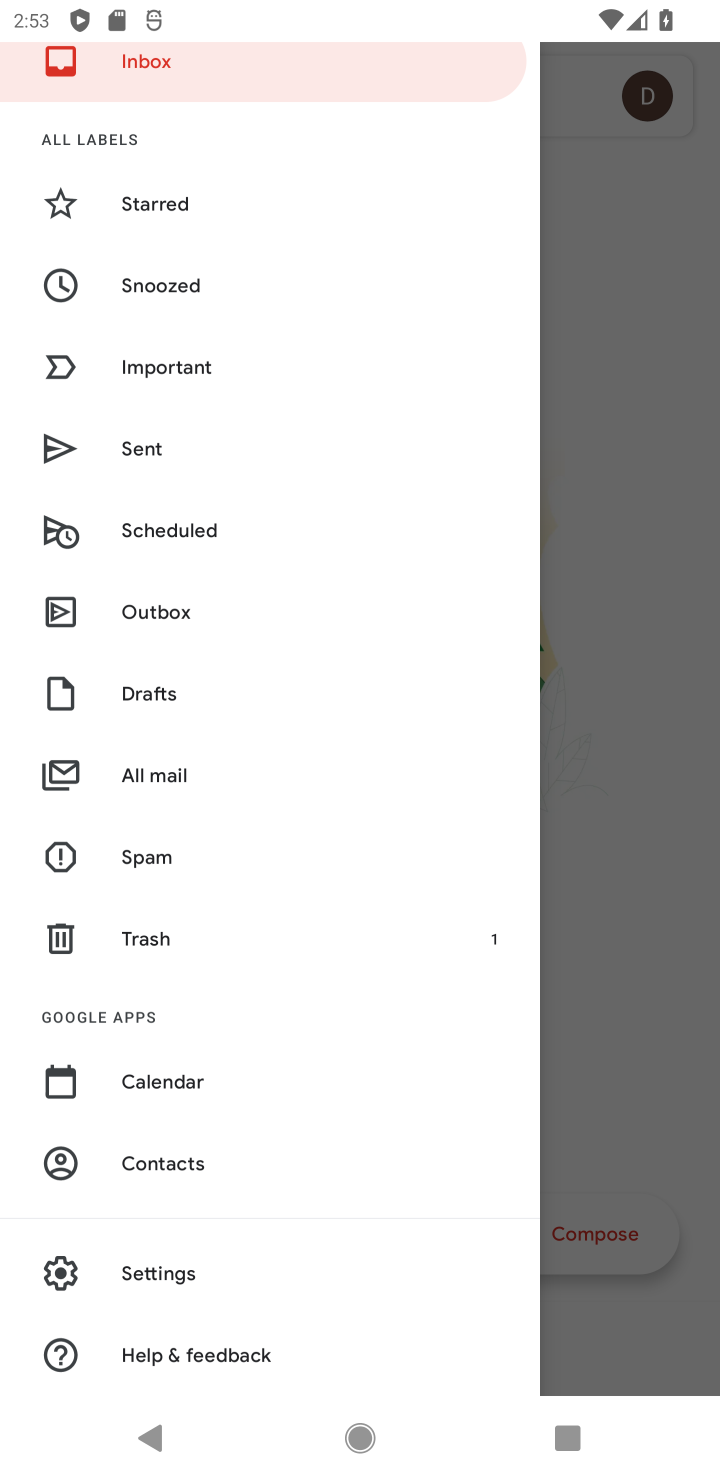
Step 33: click (283, 944)
Your task to perform on an android device: turn off priority inbox in the gmail app Image 34: 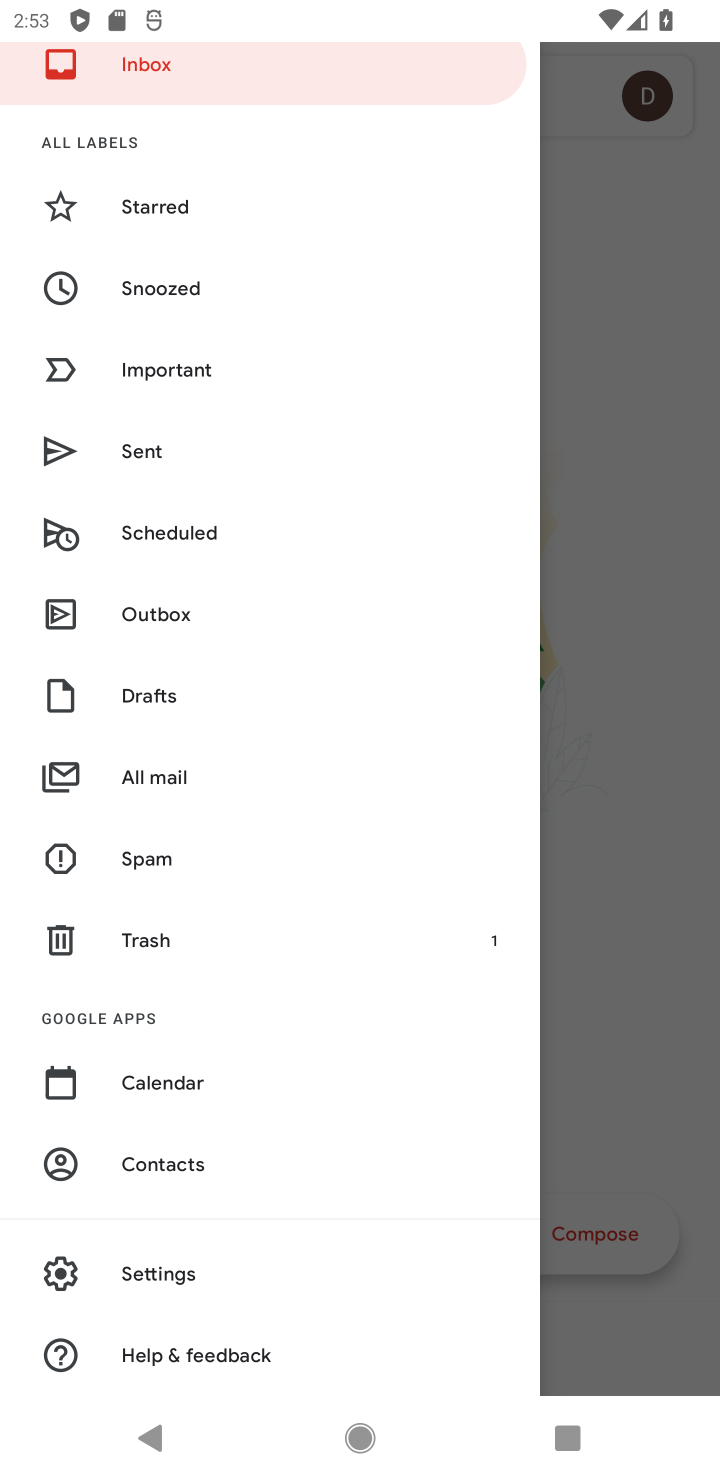
Step 34: click (157, 1274)
Your task to perform on an android device: turn off priority inbox in the gmail app Image 35: 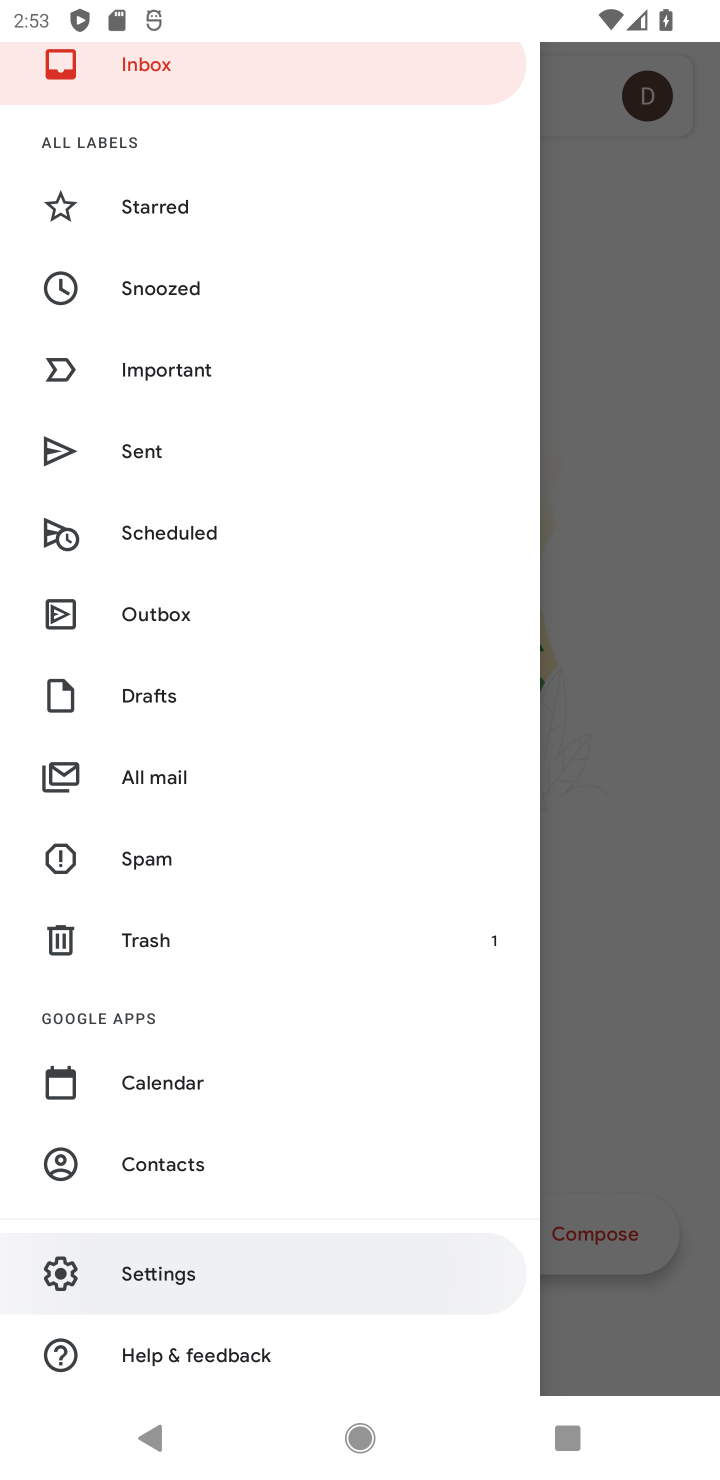
Step 35: click (157, 1274)
Your task to perform on an android device: turn off priority inbox in the gmail app Image 36: 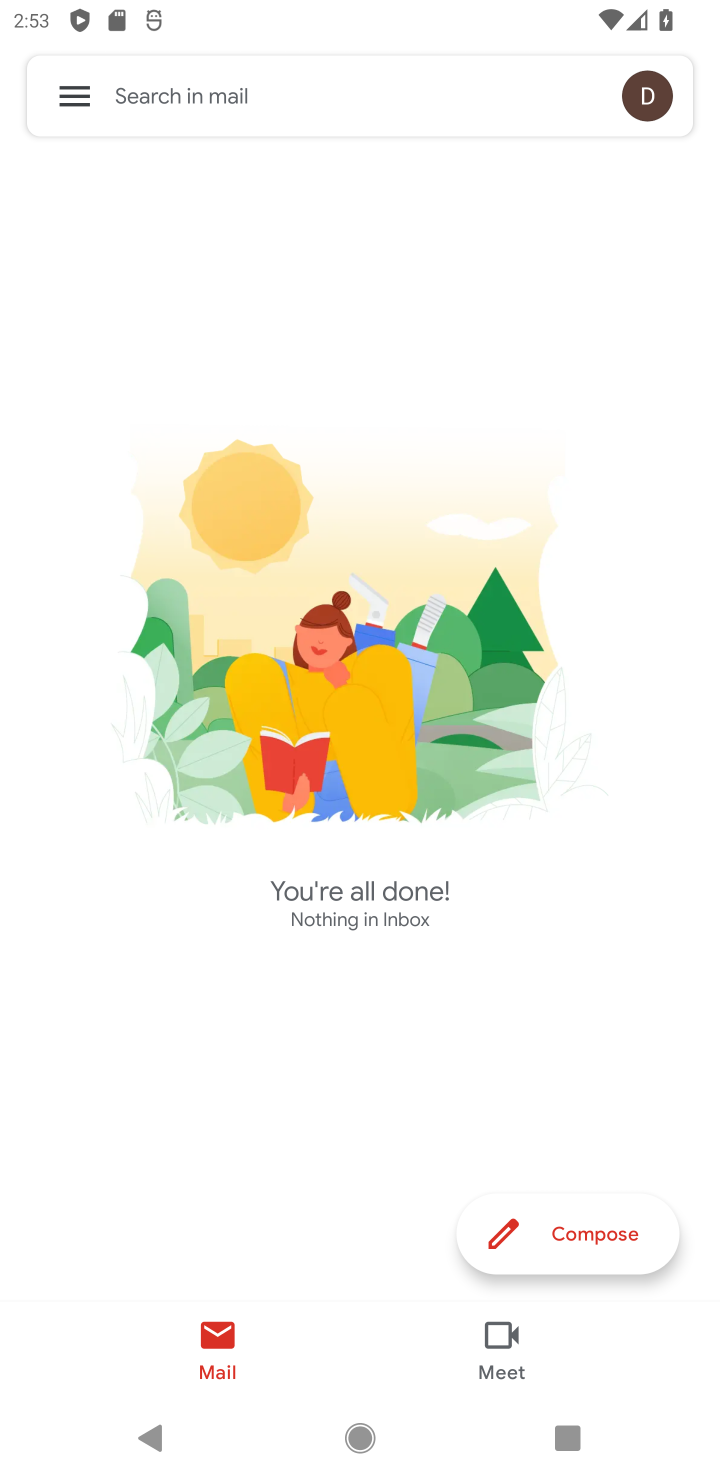
Step 36: click (159, 1272)
Your task to perform on an android device: turn off priority inbox in the gmail app Image 37: 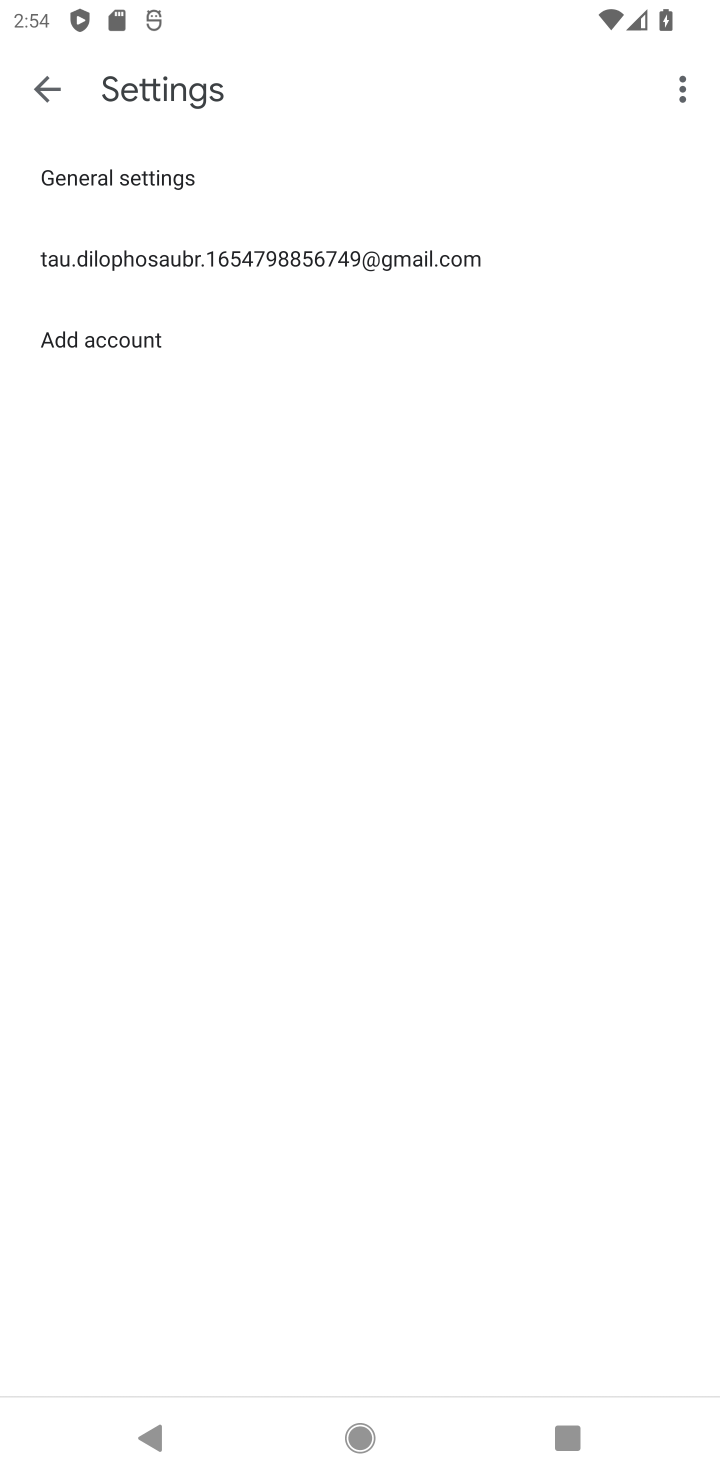
Step 37: click (118, 223)
Your task to perform on an android device: turn off priority inbox in the gmail app Image 38: 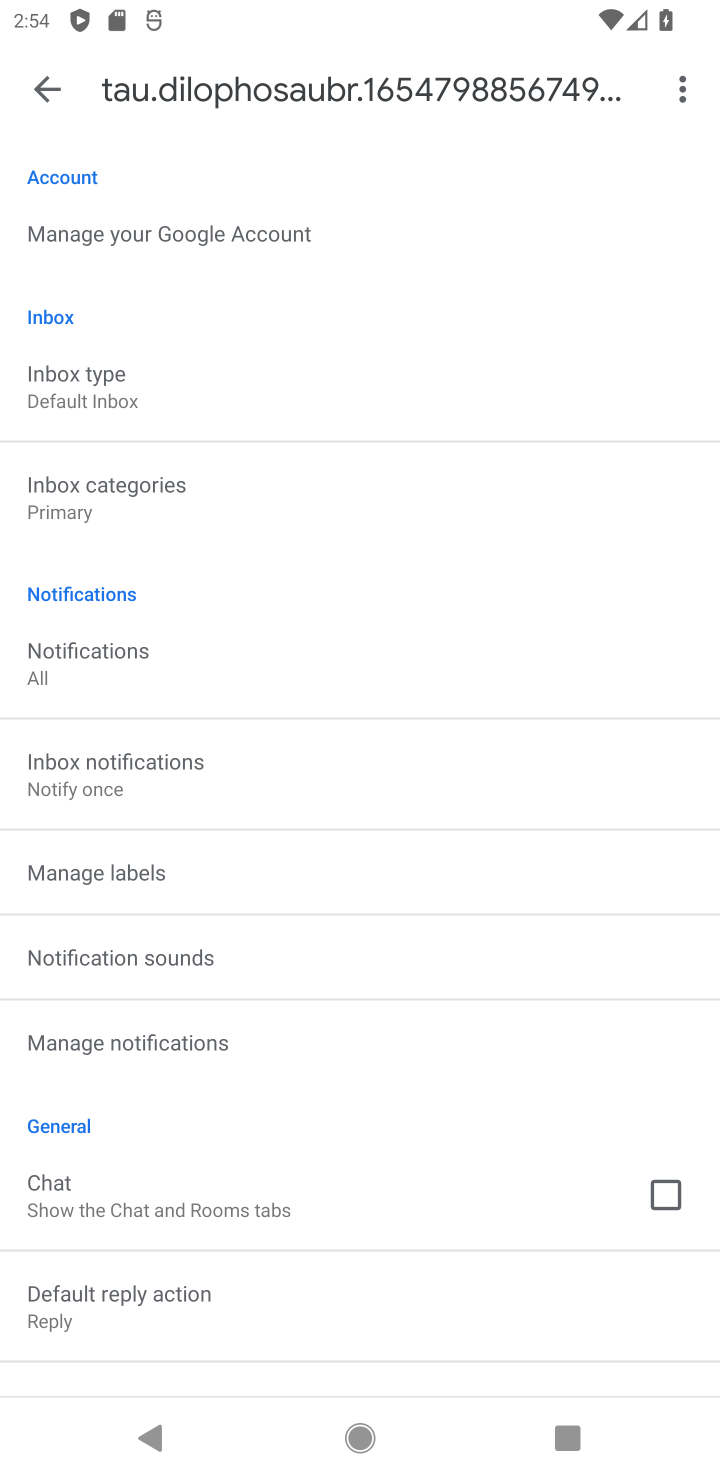
Step 38: click (58, 385)
Your task to perform on an android device: turn off priority inbox in the gmail app Image 39: 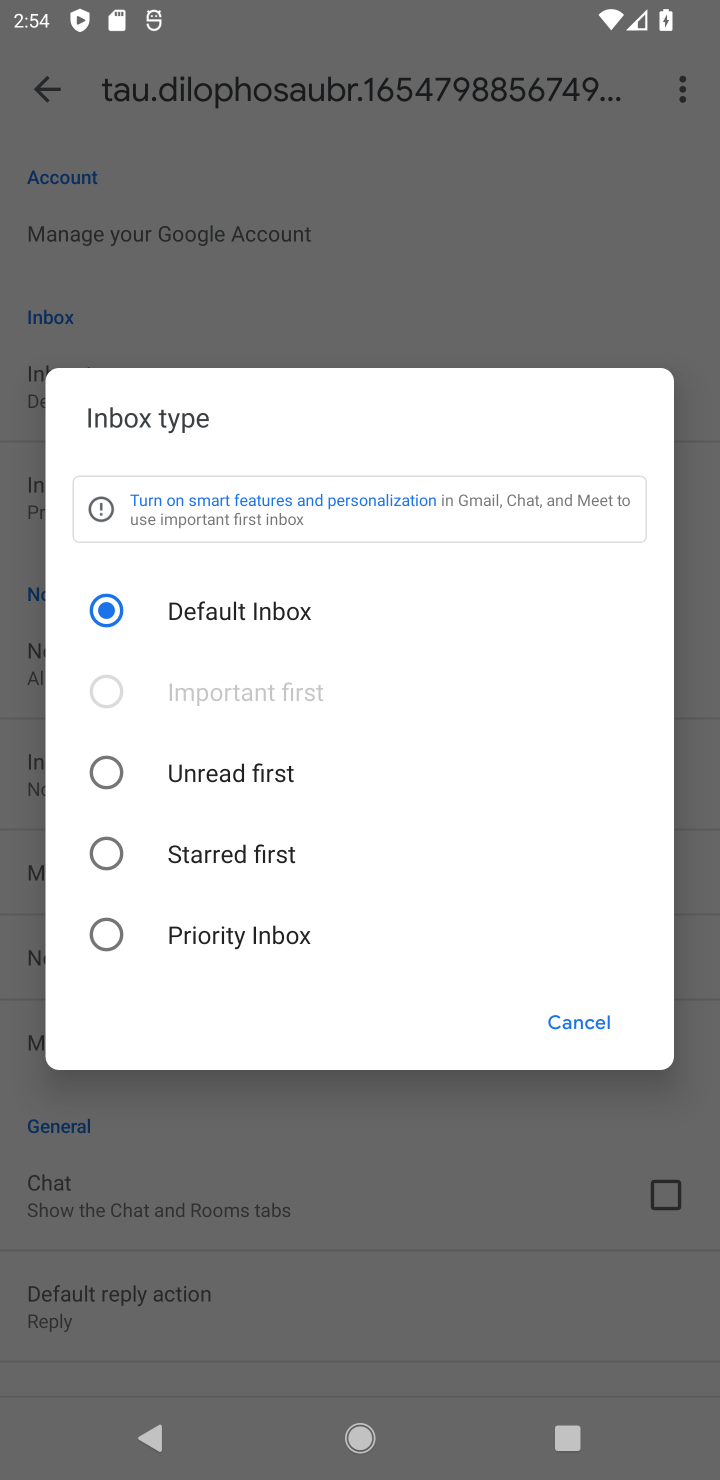
Step 39: click (112, 923)
Your task to perform on an android device: turn off priority inbox in the gmail app Image 40: 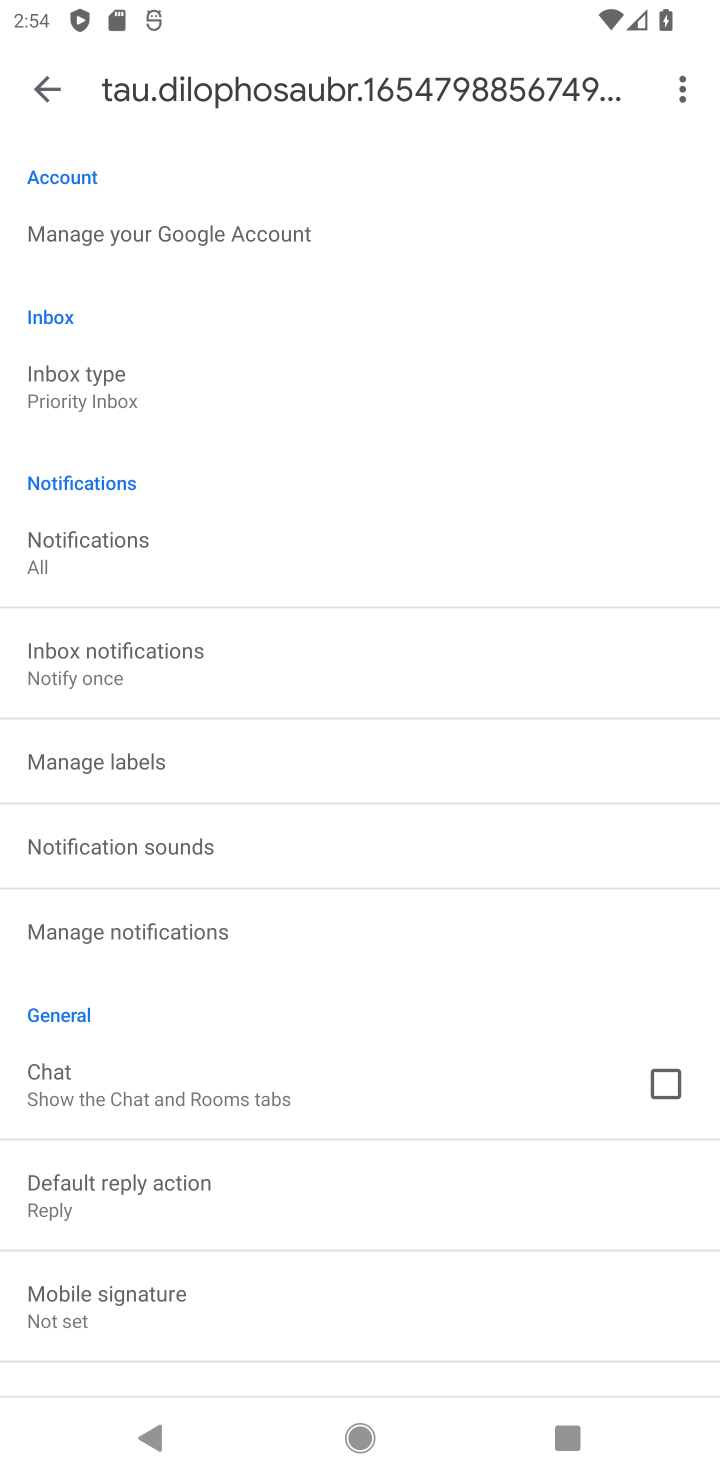
Step 40: task complete